Your task to perform on an android device: install app "Flipkart Online Shopping App" Image 0: 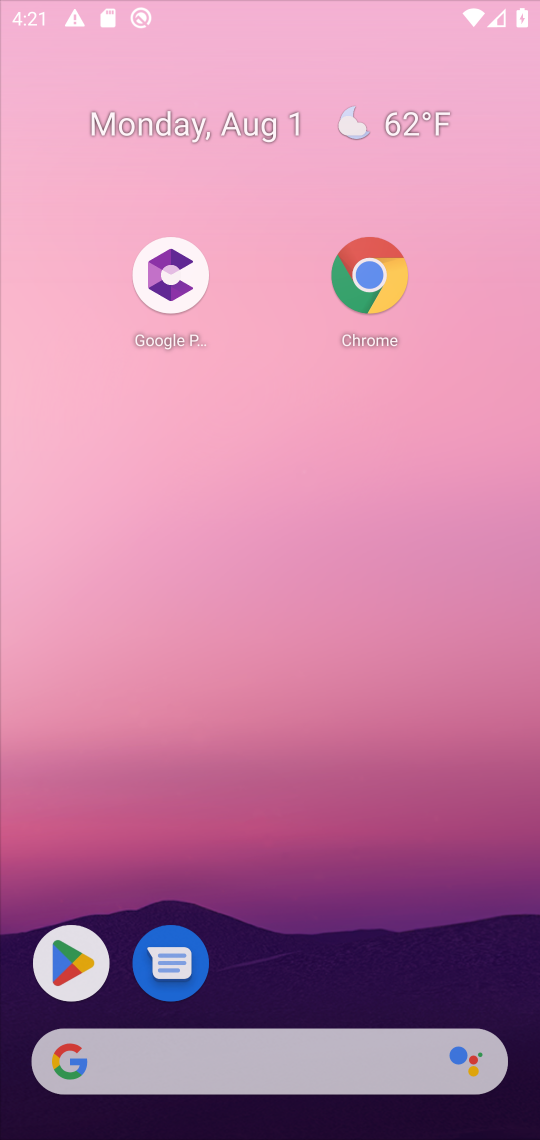
Step 0: press back button
Your task to perform on an android device: install app "Flipkart Online Shopping App" Image 1: 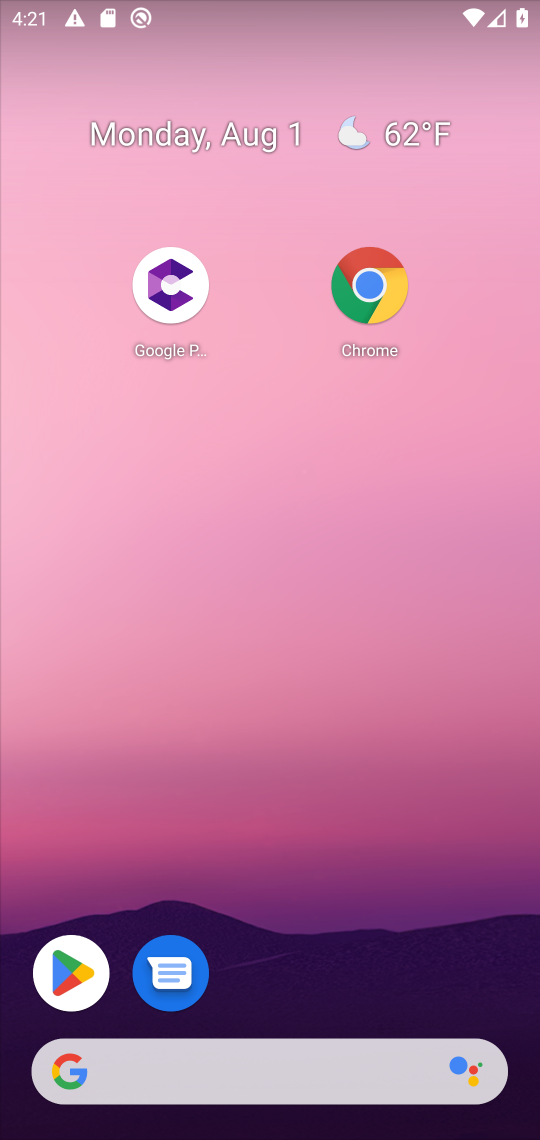
Step 1: press back button
Your task to perform on an android device: install app "Flipkart Online Shopping App" Image 2: 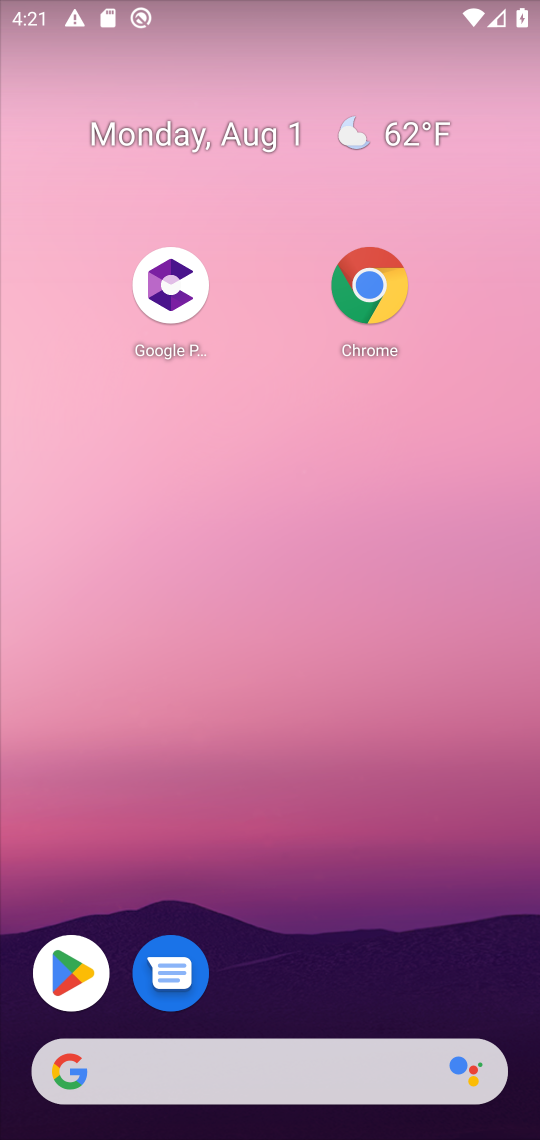
Step 2: click (227, 174)
Your task to perform on an android device: install app "Flipkart Online Shopping App" Image 3: 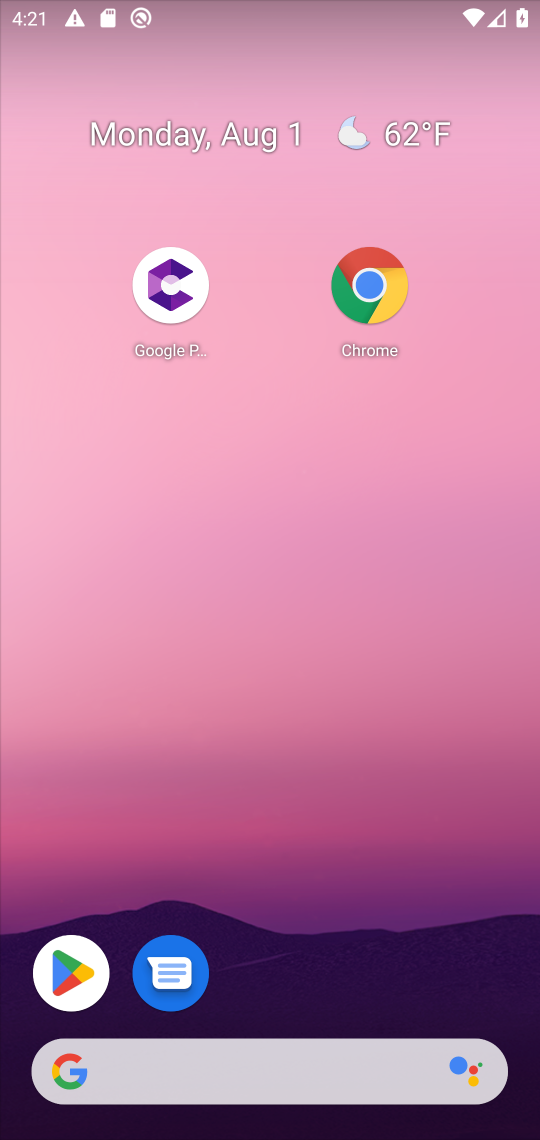
Step 3: drag from (244, 723) to (287, 363)
Your task to perform on an android device: install app "Flipkart Online Shopping App" Image 4: 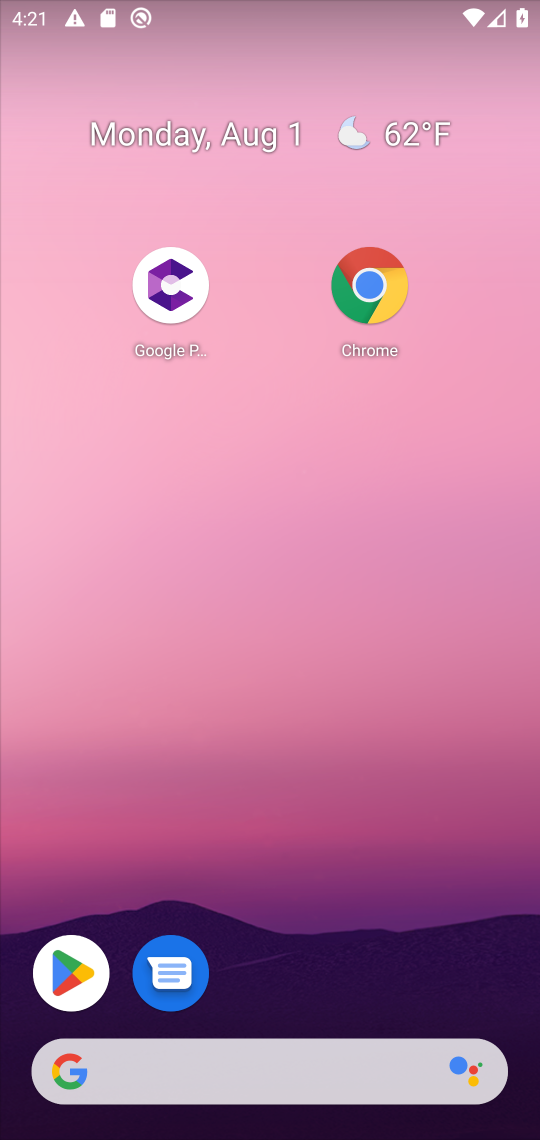
Step 4: drag from (223, 973) to (249, 265)
Your task to perform on an android device: install app "Flipkart Online Shopping App" Image 5: 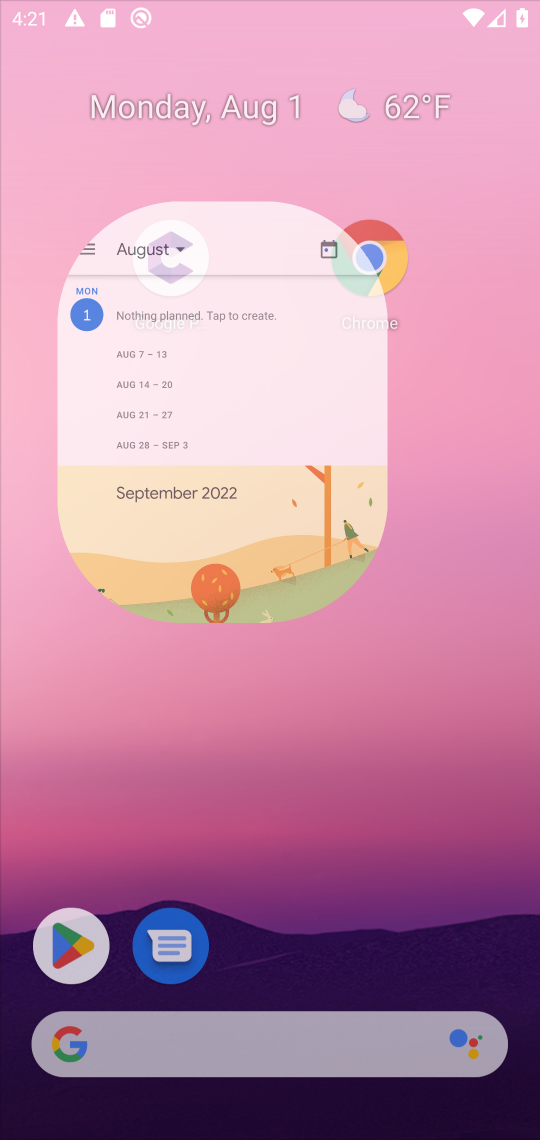
Step 5: drag from (254, 489) to (254, 363)
Your task to perform on an android device: install app "Flipkart Online Shopping App" Image 6: 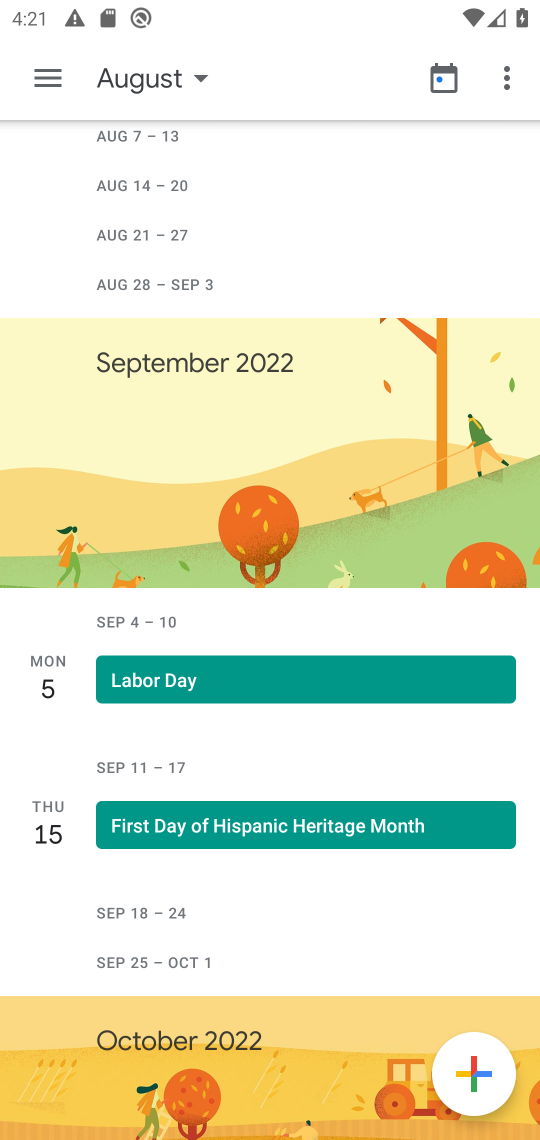
Step 6: drag from (287, 856) to (322, 79)
Your task to perform on an android device: install app "Flipkart Online Shopping App" Image 7: 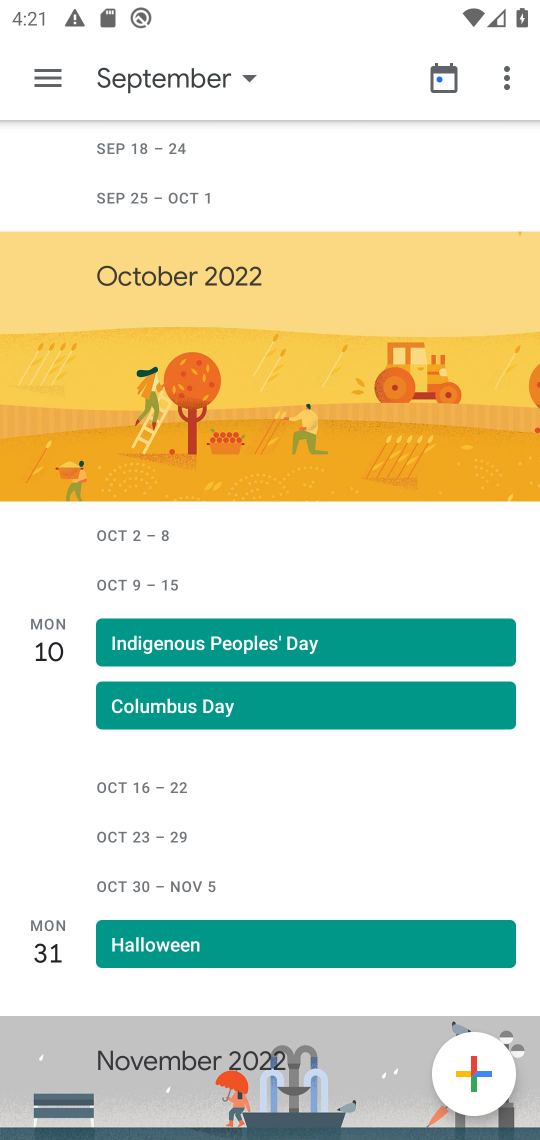
Step 7: press back button
Your task to perform on an android device: install app "Flipkart Online Shopping App" Image 8: 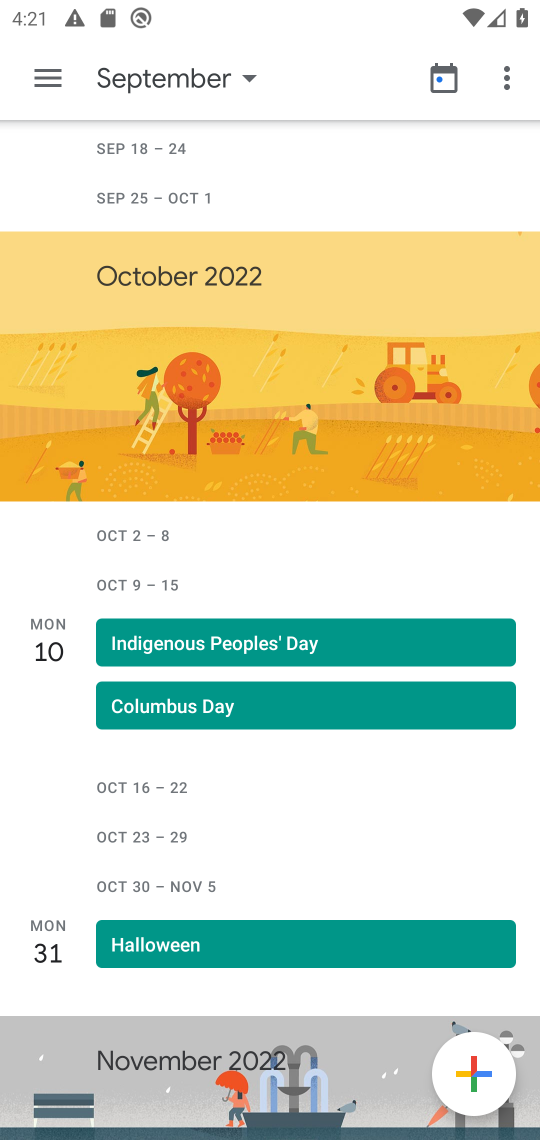
Step 8: press back button
Your task to perform on an android device: install app "Flipkart Online Shopping App" Image 9: 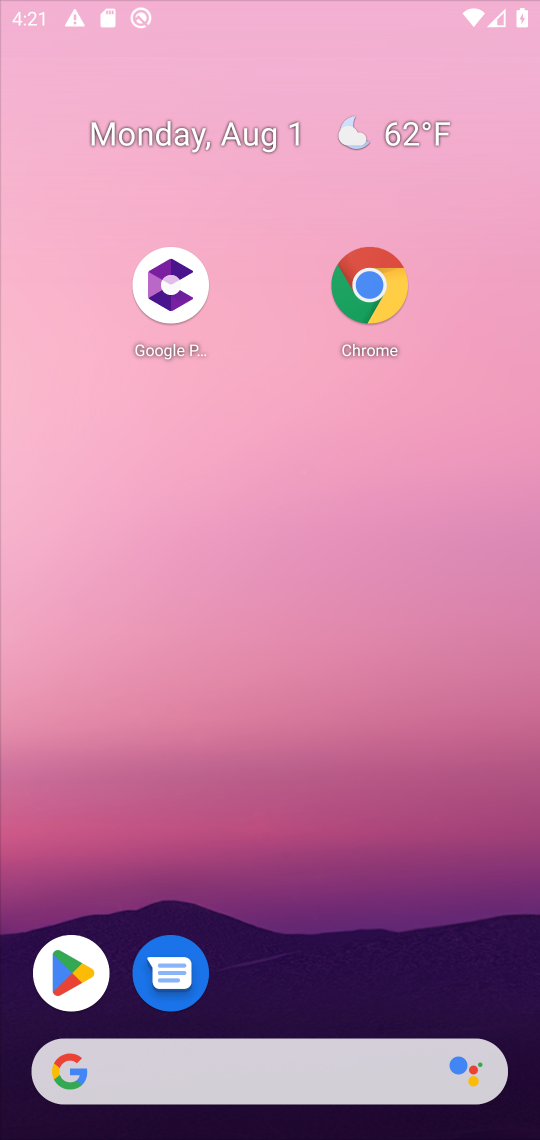
Step 9: press home button
Your task to perform on an android device: install app "Flipkart Online Shopping App" Image 10: 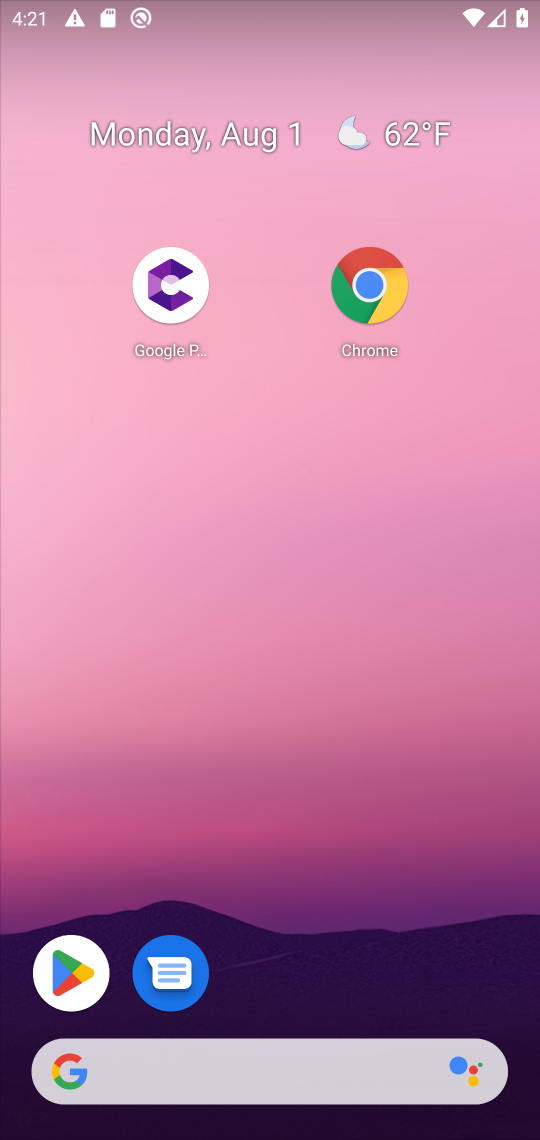
Step 10: drag from (332, 912) to (195, 42)
Your task to perform on an android device: install app "Flipkart Online Shopping App" Image 11: 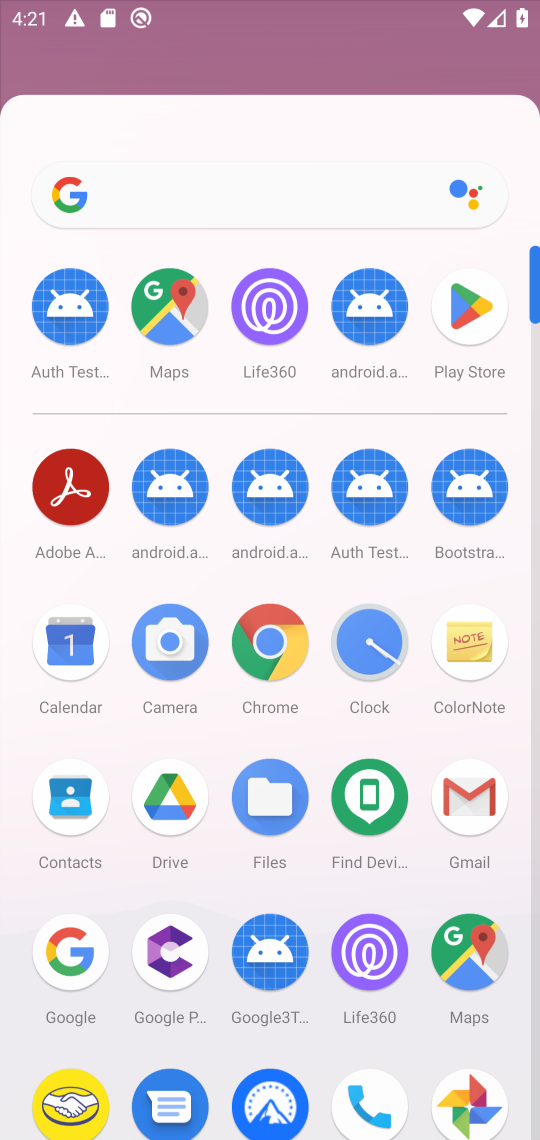
Step 11: drag from (157, 512) to (129, 367)
Your task to perform on an android device: install app "Flipkart Online Shopping App" Image 12: 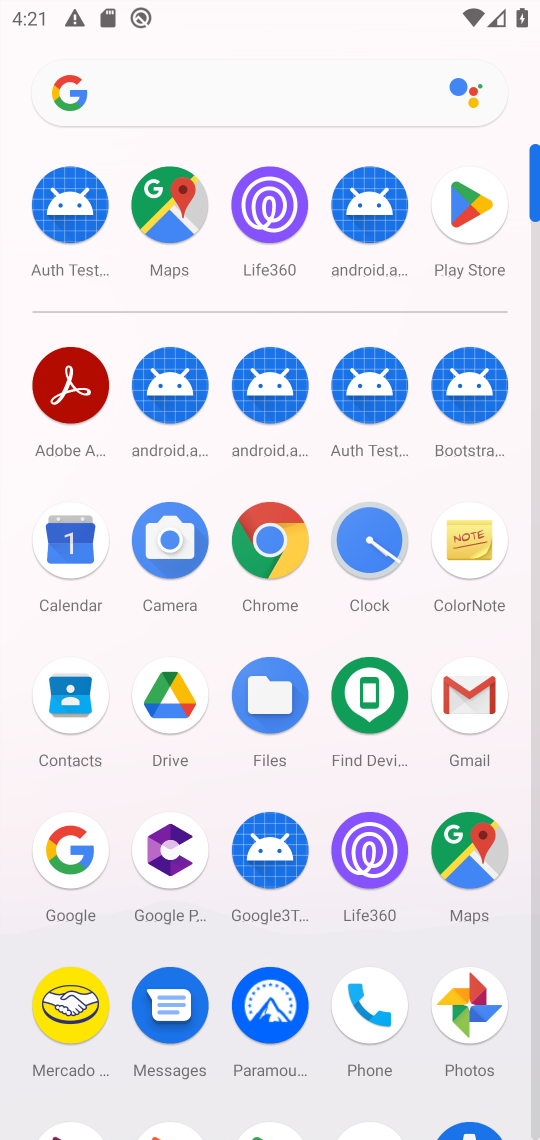
Step 12: click (467, 212)
Your task to perform on an android device: install app "Flipkart Online Shopping App" Image 13: 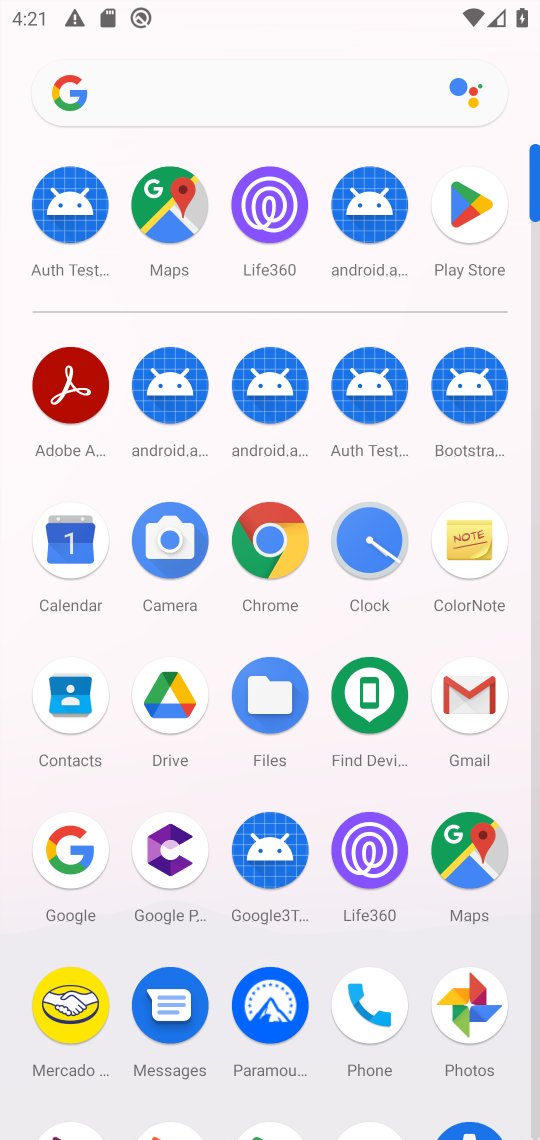
Step 13: click (474, 204)
Your task to perform on an android device: install app "Flipkart Online Shopping App" Image 14: 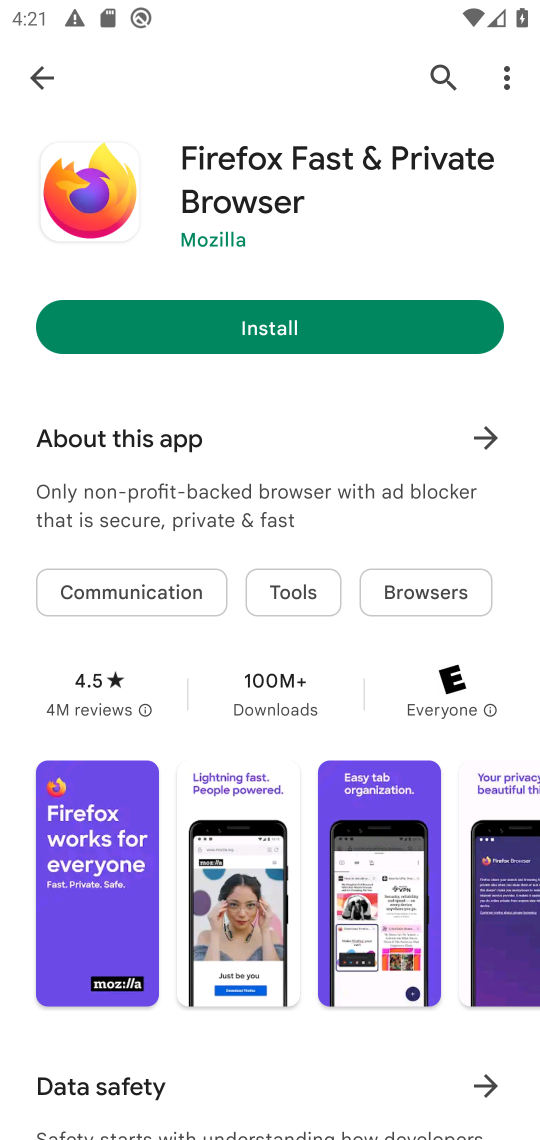
Step 14: click (22, 81)
Your task to perform on an android device: install app "Flipkart Online Shopping App" Image 15: 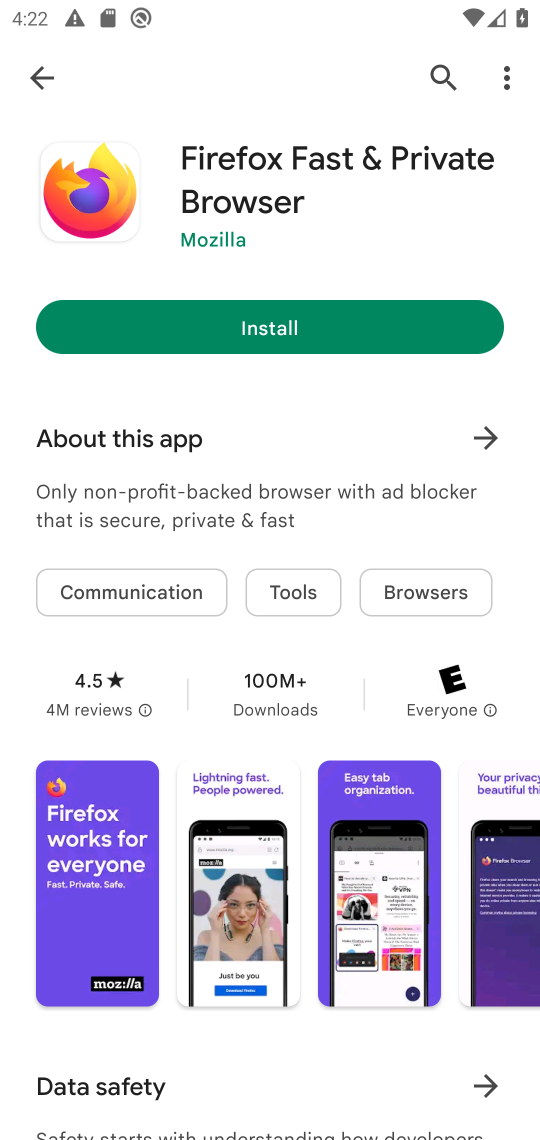
Step 15: click (29, 80)
Your task to perform on an android device: install app "Flipkart Online Shopping App" Image 16: 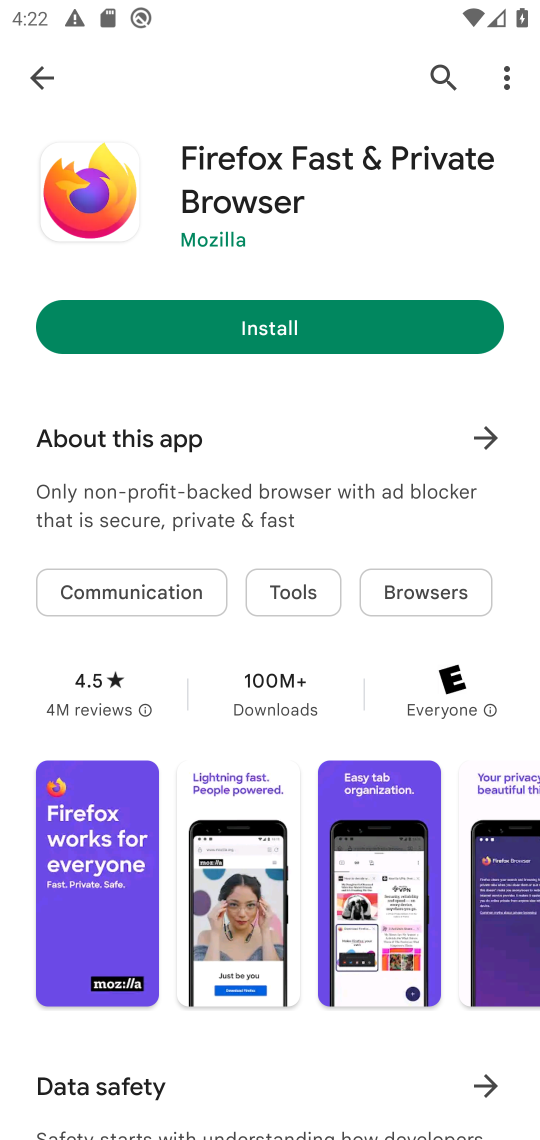
Step 16: click (29, 80)
Your task to perform on an android device: install app "Flipkart Online Shopping App" Image 17: 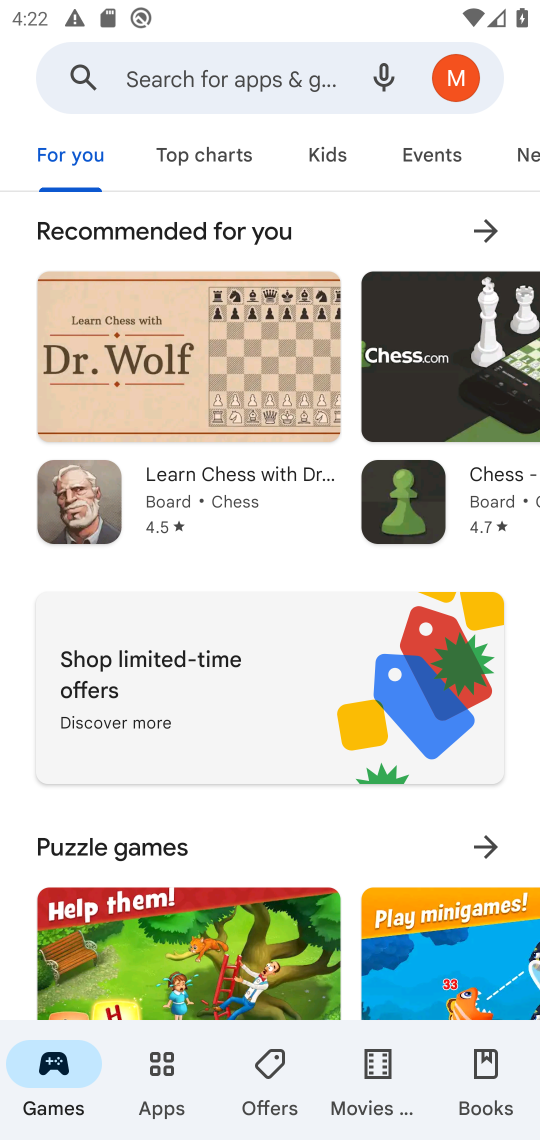
Step 17: click (187, 82)
Your task to perform on an android device: install app "Flipkart Online Shopping App" Image 18: 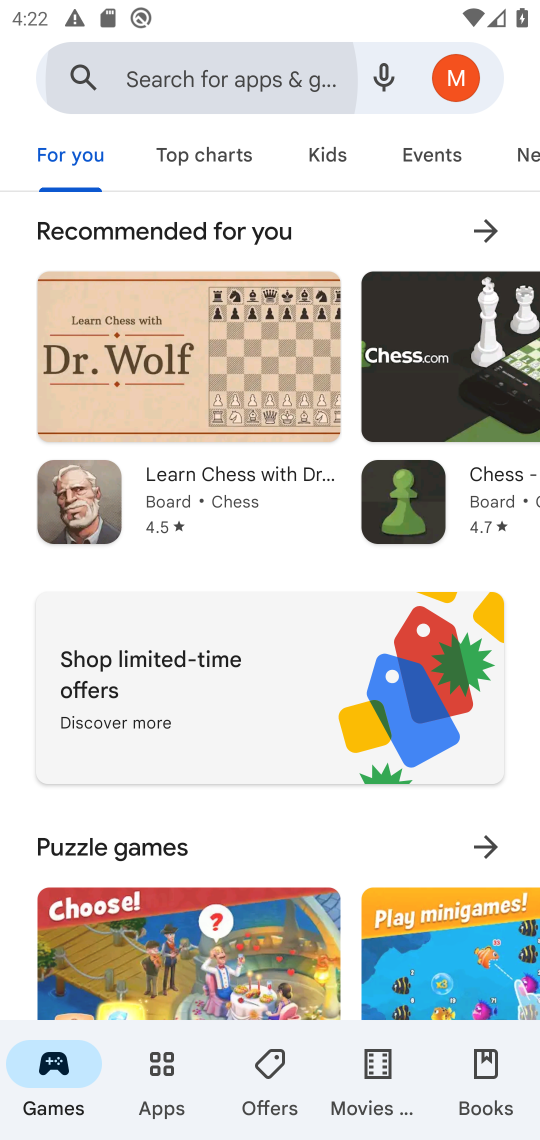
Step 18: click (184, 93)
Your task to perform on an android device: install app "Flipkart Online Shopping App" Image 19: 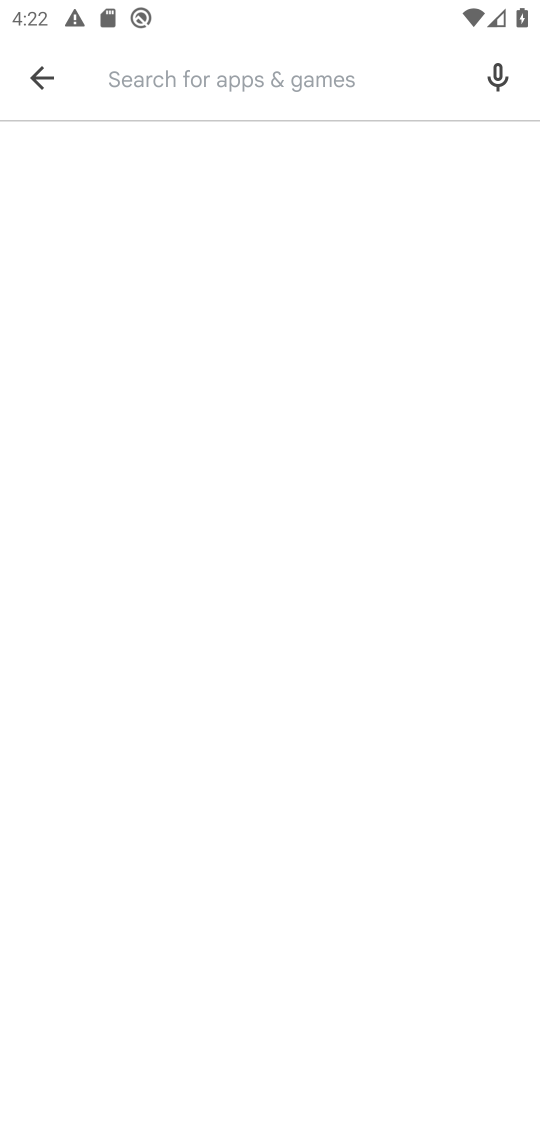
Step 19: click (184, 93)
Your task to perform on an android device: install app "Flipkart Online Shopping App" Image 20: 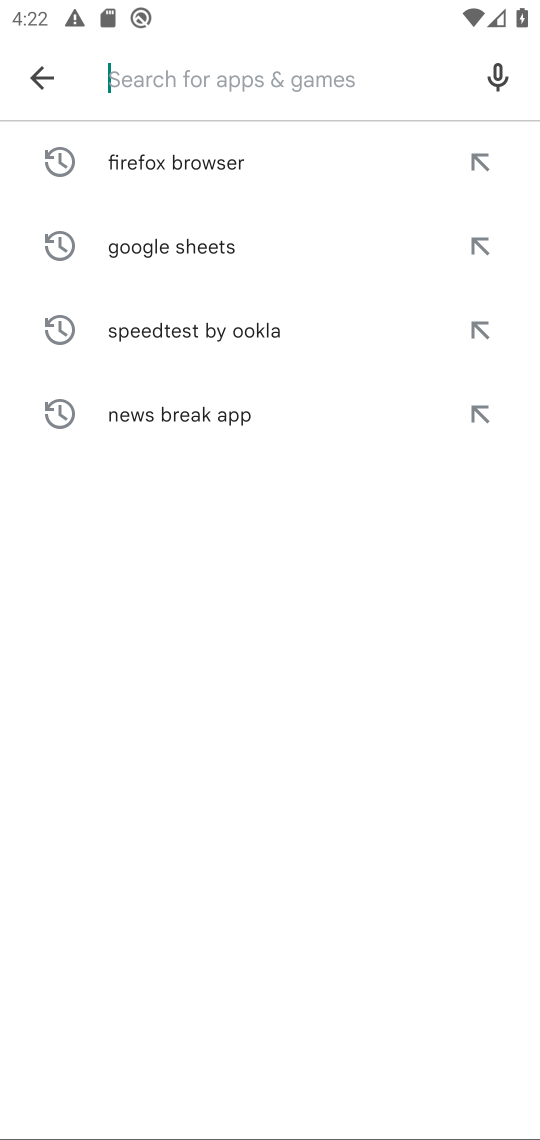
Step 20: click (183, 92)
Your task to perform on an android device: install app "Flipkart Online Shopping App" Image 21: 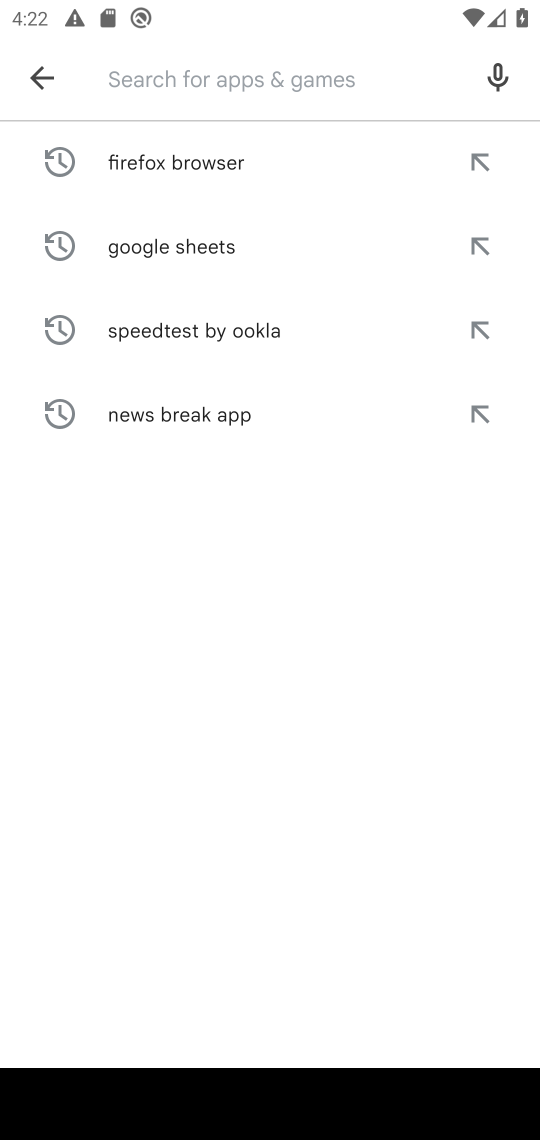
Step 21: type "flipkaet online "
Your task to perform on an android device: install app "Flipkart Online Shopping App" Image 22: 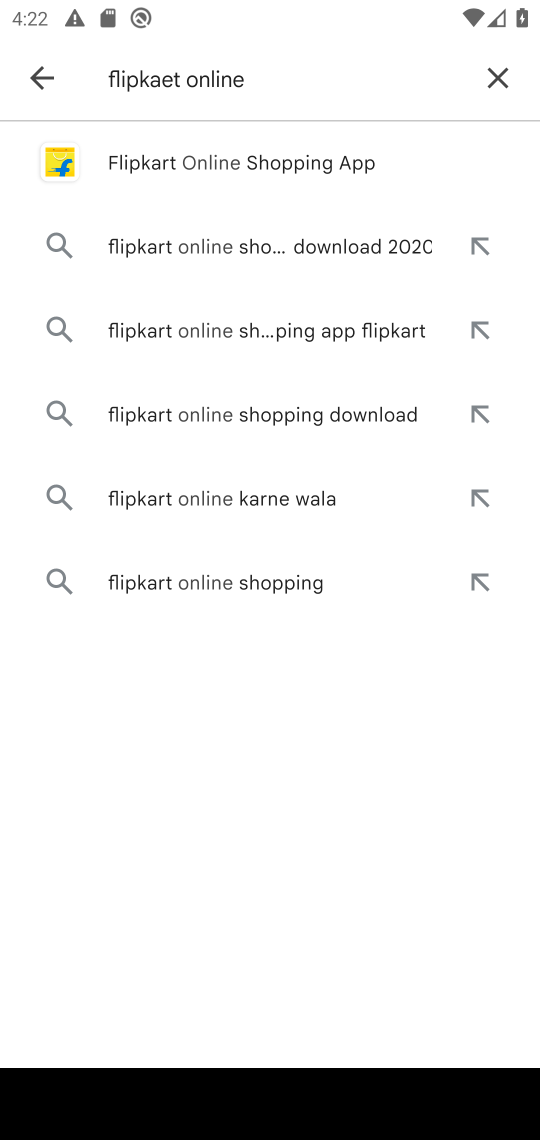
Step 22: click (289, 155)
Your task to perform on an android device: install app "Flipkart Online Shopping App" Image 23: 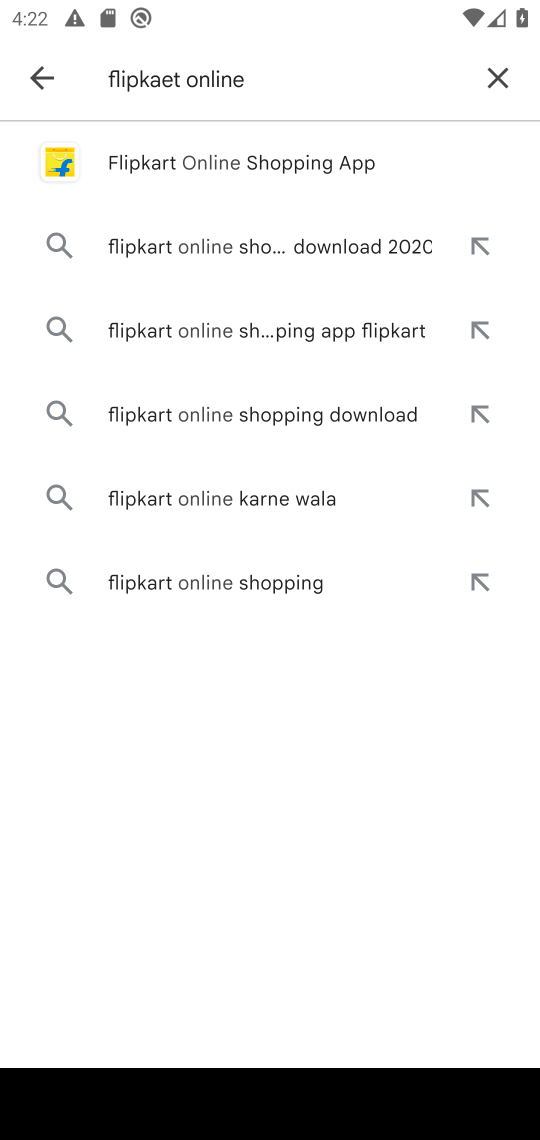
Step 23: click (289, 155)
Your task to perform on an android device: install app "Flipkart Online Shopping App" Image 24: 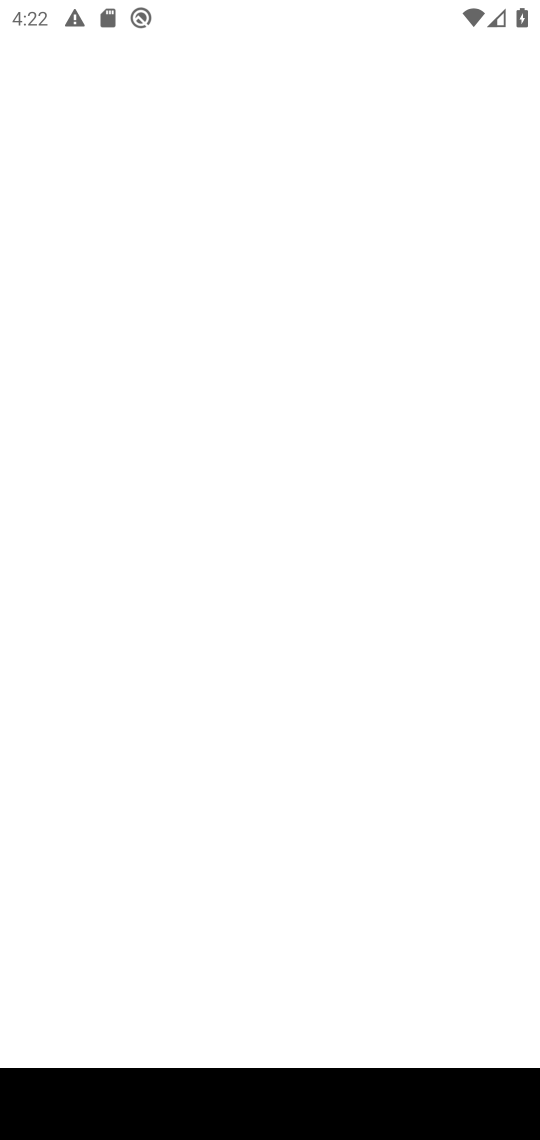
Step 24: click (289, 155)
Your task to perform on an android device: install app "Flipkart Online Shopping App" Image 25: 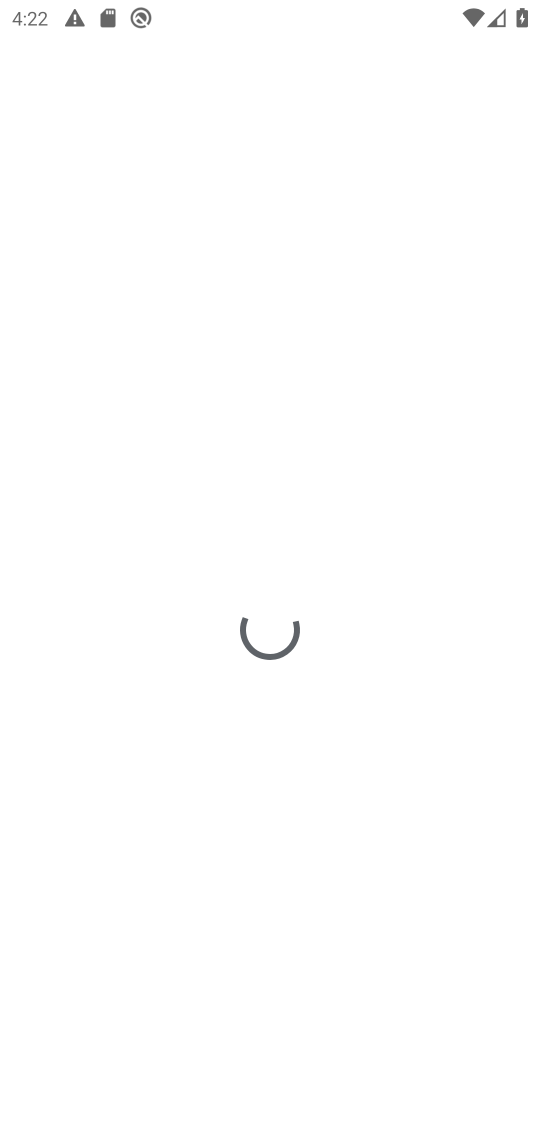
Step 25: click (289, 155)
Your task to perform on an android device: install app "Flipkart Online Shopping App" Image 26: 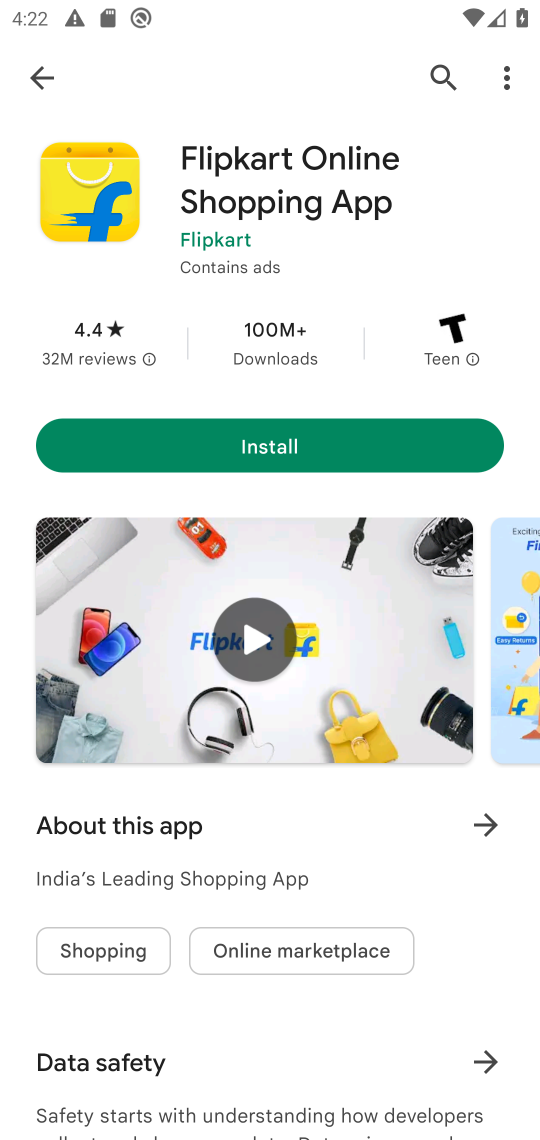
Step 26: click (249, 429)
Your task to perform on an android device: install app "Flipkart Online Shopping App" Image 27: 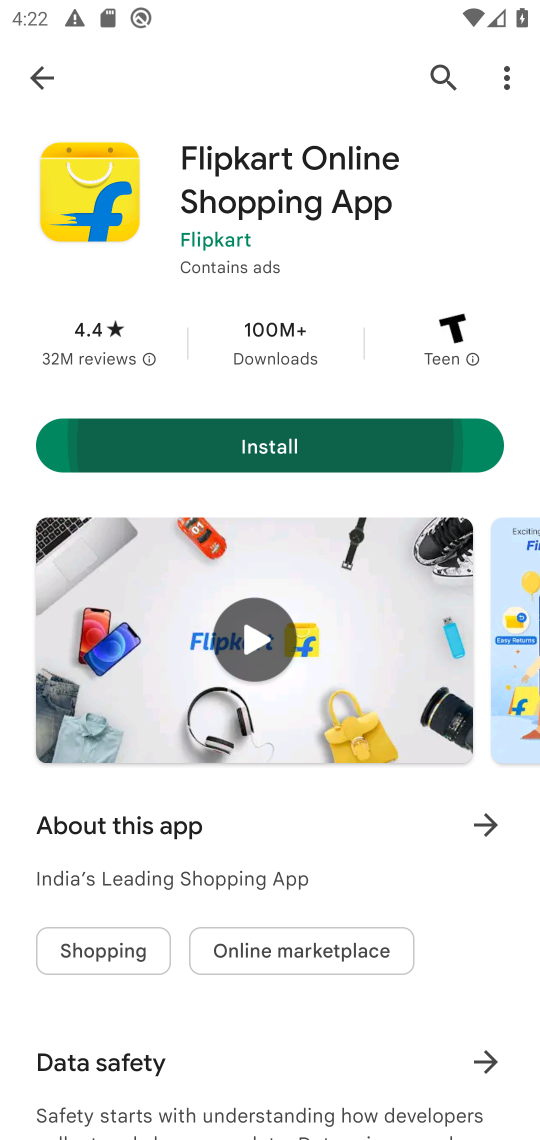
Step 27: click (251, 430)
Your task to perform on an android device: install app "Flipkart Online Shopping App" Image 28: 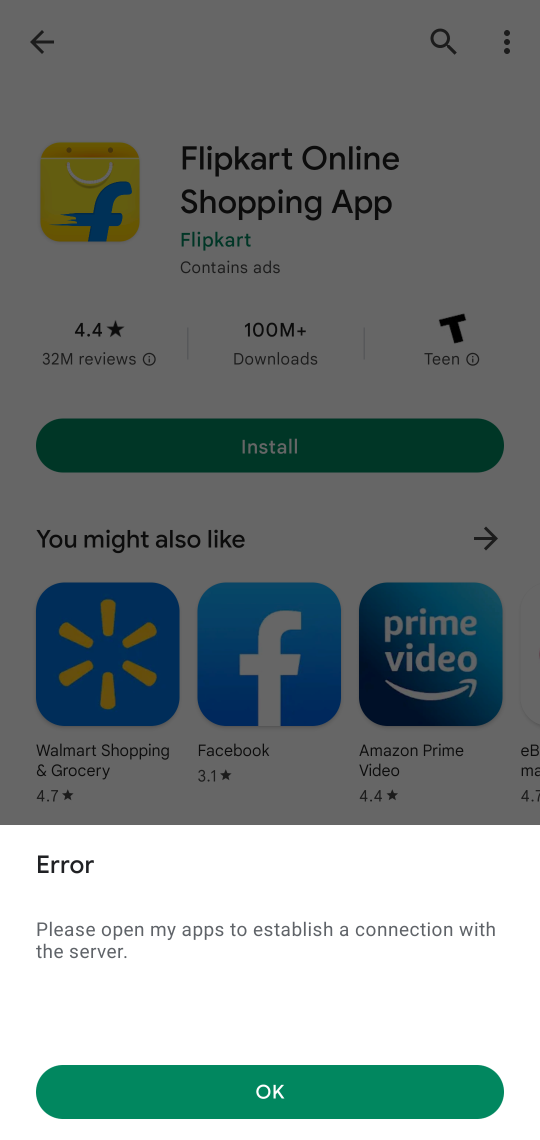
Step 28: click (374, 1088)
Your task to perform on an android device: install app "Flipkart Online Shopping App" Image 29: 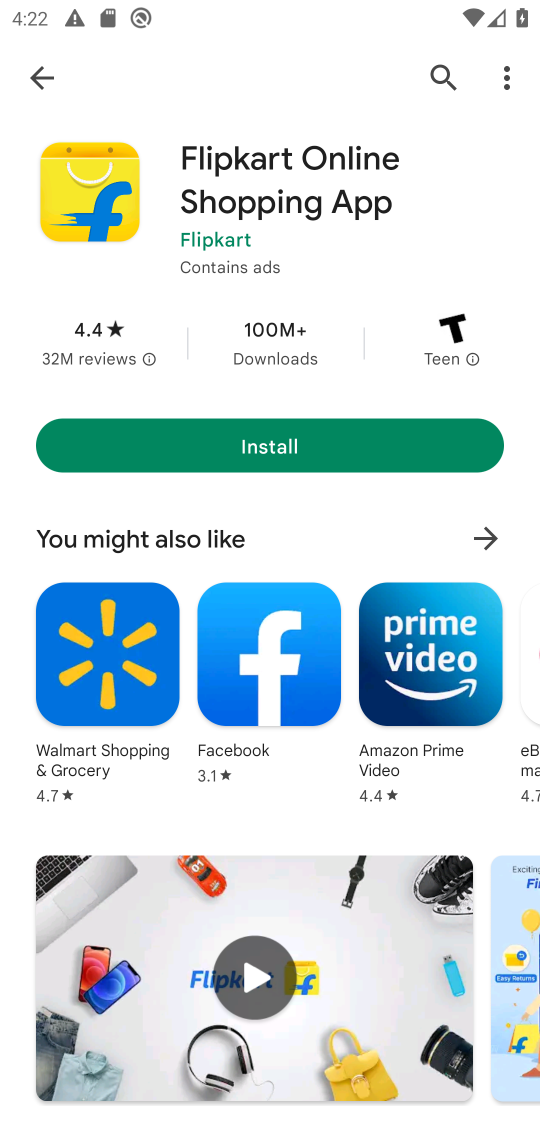
Step 29: click (303, 440)
Your task to perform on an android device: install app "Flipkart Online Shopping App" Image 30: 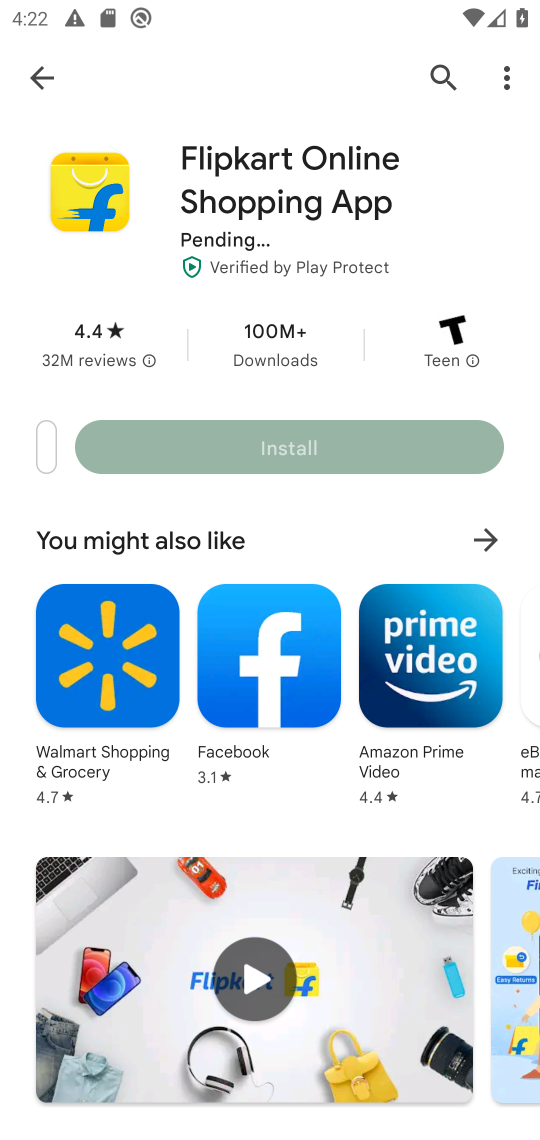
Step 30: click (305, 439)
Your task to perform on an android device: install app "Flipkart Online Shopping App" Image 31: 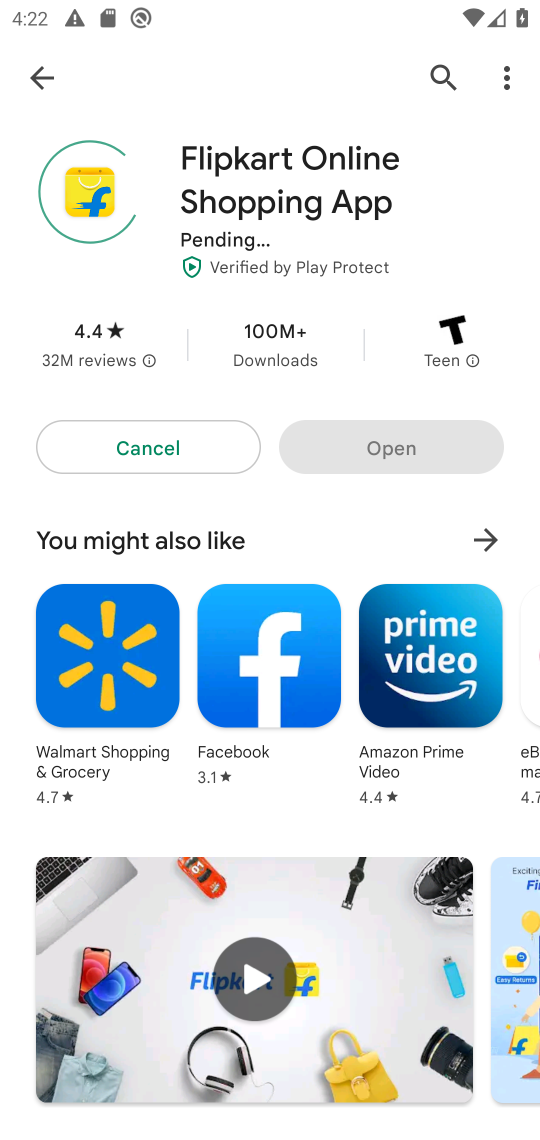
Step 31: click (296, 445)
Your task to perform on an android device: install app "Flipkart Online Shopping App" Image 32: 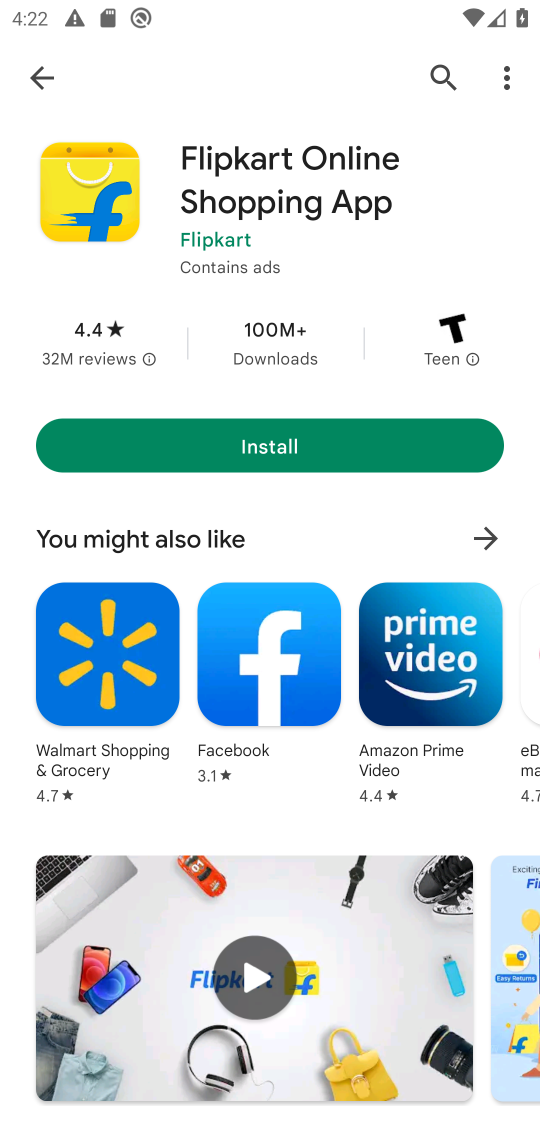
Step 32: click (312, 459)
Your task to perform on an android device: install app "Flipkart Online Shopping App" Image 33: 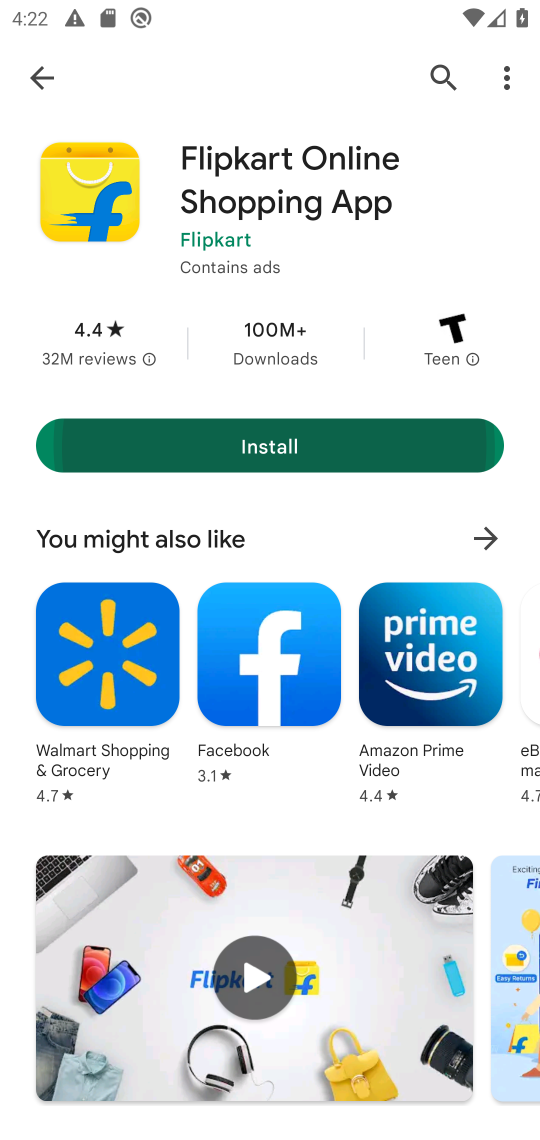
Step 33: click (311, 452)
Your task to perform on an android device: install app "Flipkart Online Shopping App" Image 34: 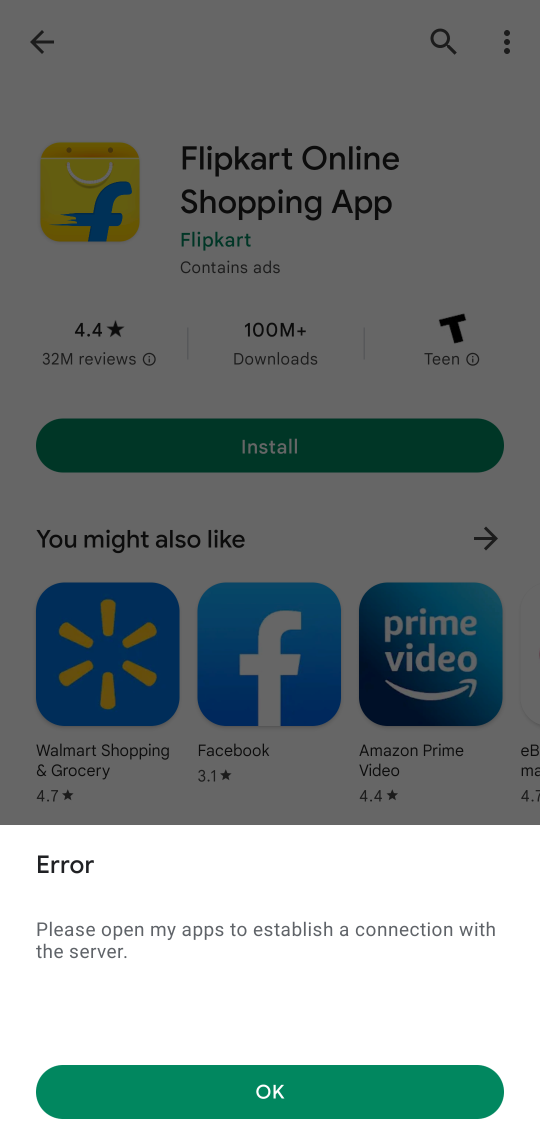
Step 34: click (249, 1081)
Your task to perform on an android device: install app "Flipkart Online Shopping App" Image 35: 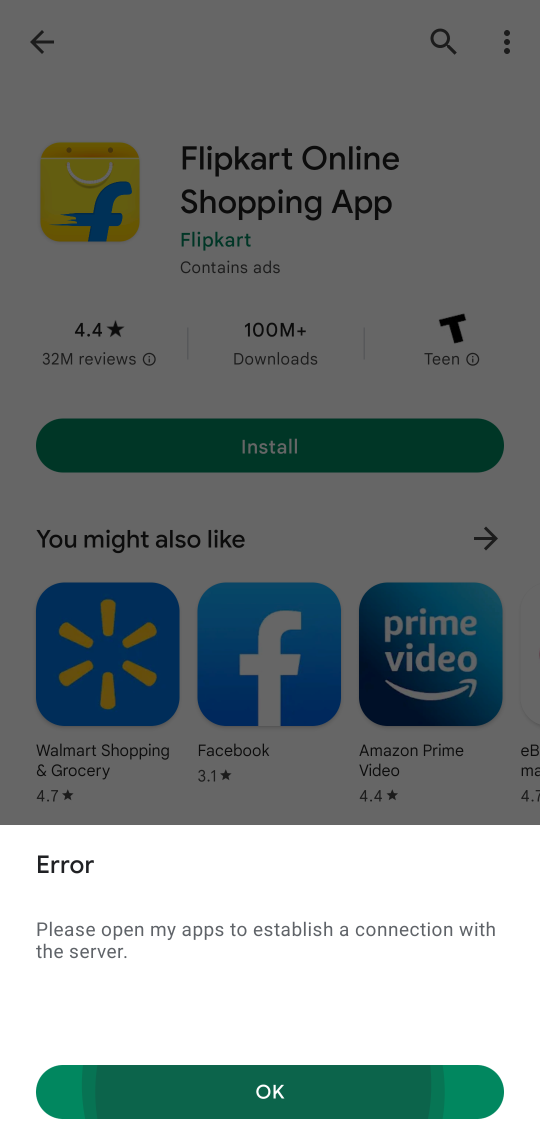
Step 35: click (252, 1082)
Your task to perform on an android device: install app "Flipkart Online Shopping App" Image 36: 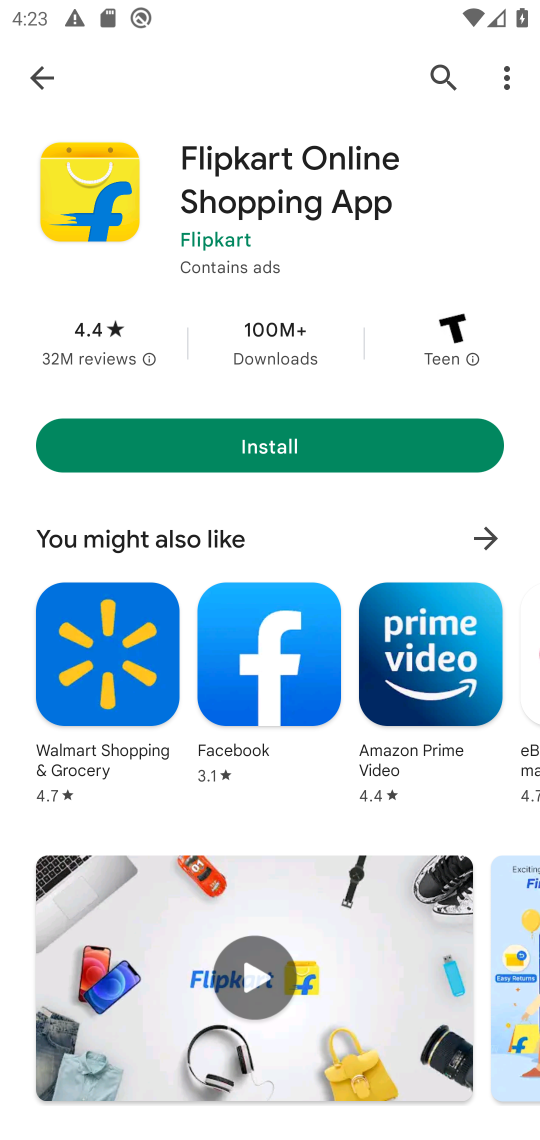
Step 36: click (254, 443)
Your task to perform on an android device: install app "Flipkart Online Shopping App" Image 37: 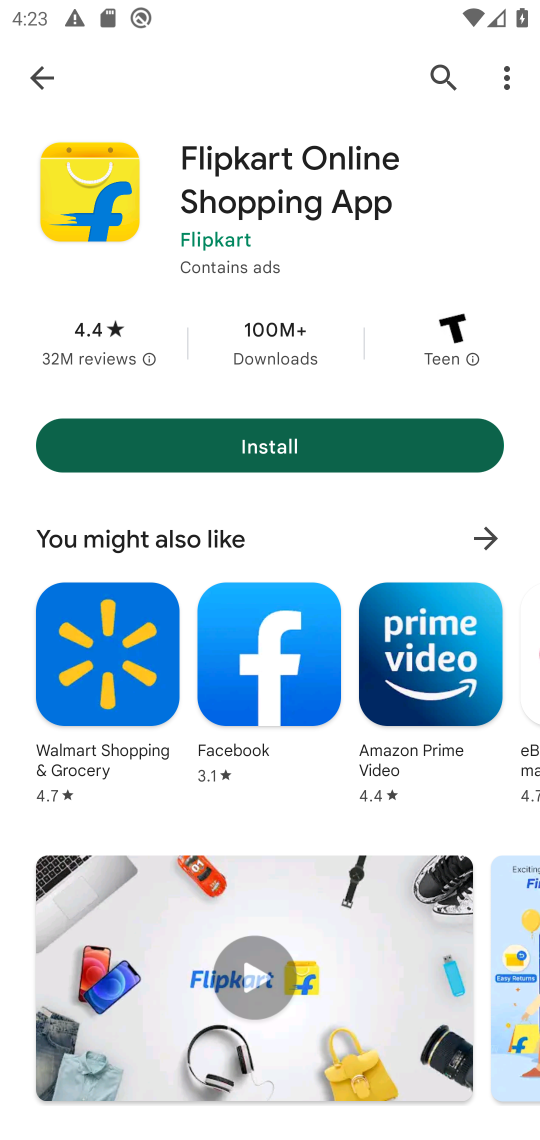
Step 37: click (265, 435)
Your task to perform on an android device: install app "Flipkart Online Shopping App" Image 38: 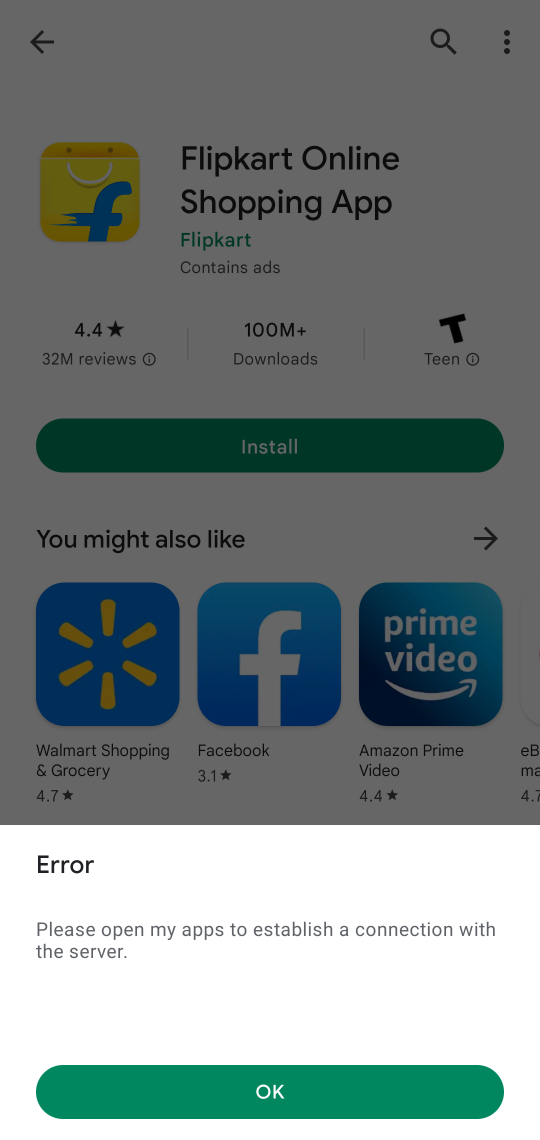
Step 38: click (280, 1092)
Your task to perform on an android device: install app "Flipkart Online Shopping App" Image 39: 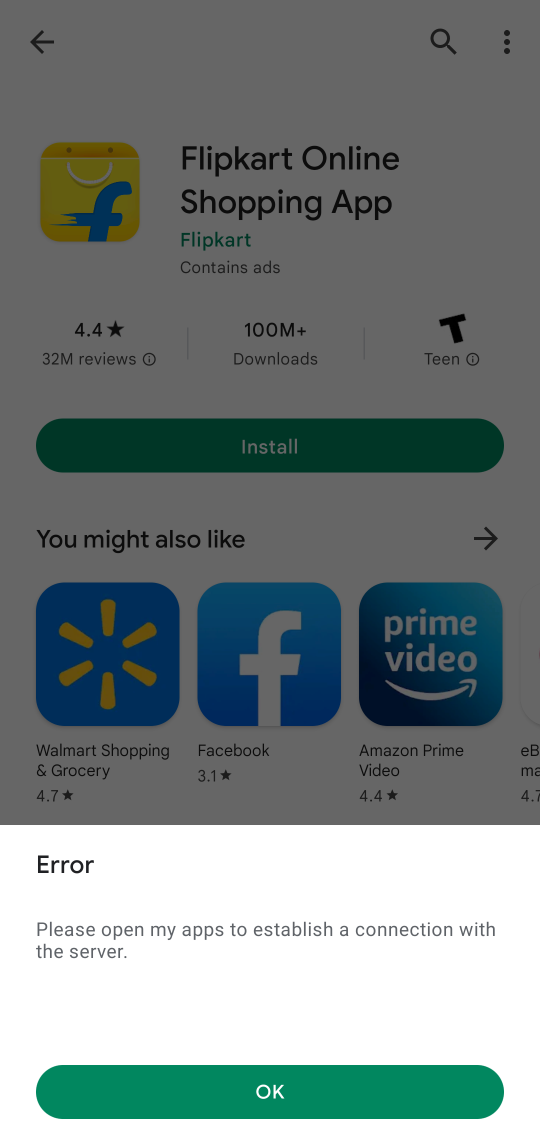
Step 39: click (298, 1090)
Your task to perform on an android device: install app "Flipkart Online Shopping App" Image 40: 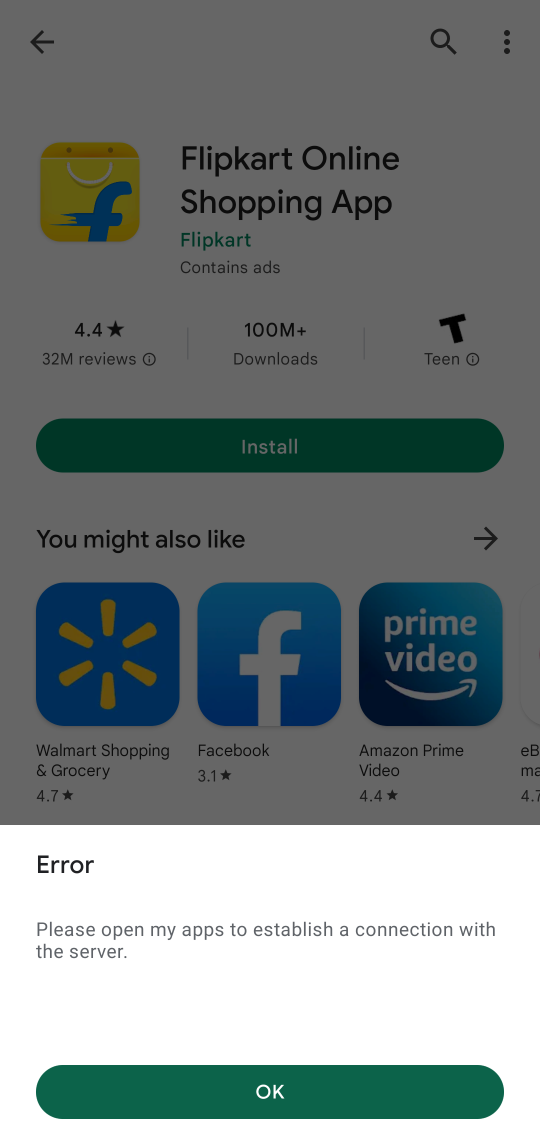
Step 40: click (299, 1089)
Your task to perform on an android device: install app "Flipkart Online Shopping App" Image 41: 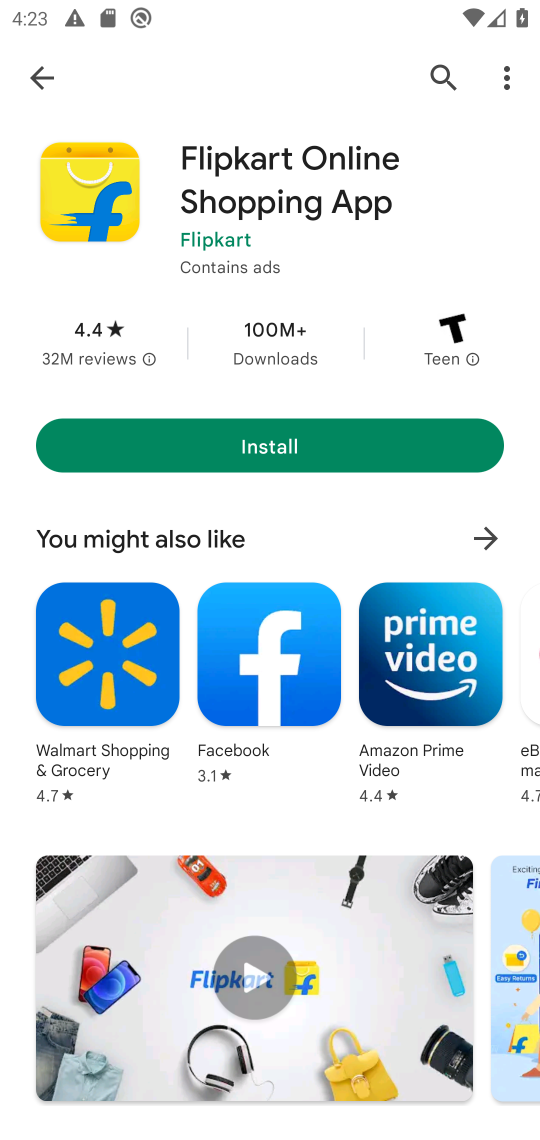
Step 41: click (293, 446)
Your task to perform on an android device: install app "Flipkart Online Shopping App" Image 42: 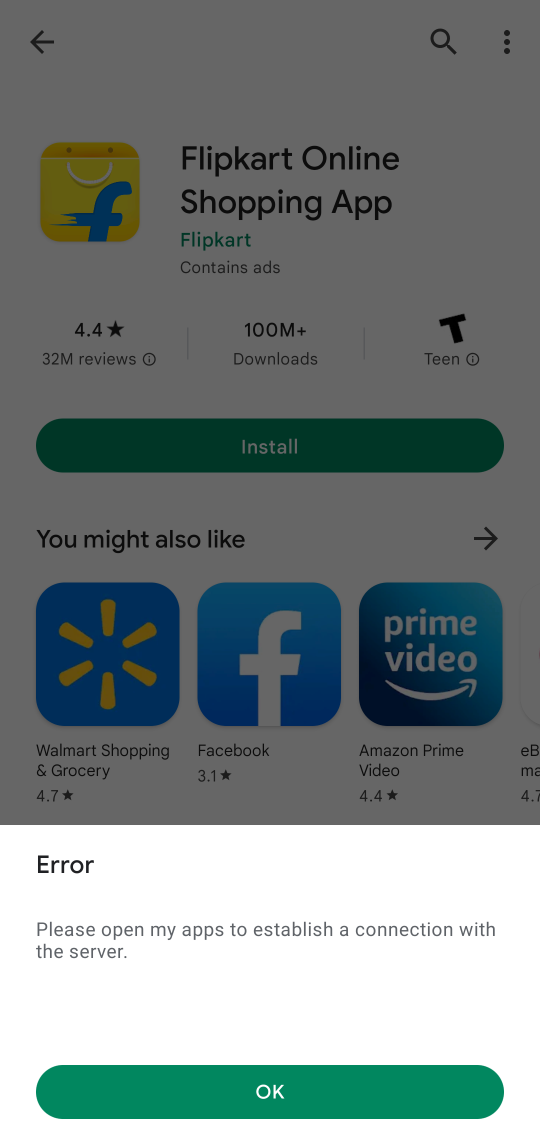
Step 42: click (268, 1097)
Your task to perform on an android device: install app "Flipkart Online Shopping App" Image 43: 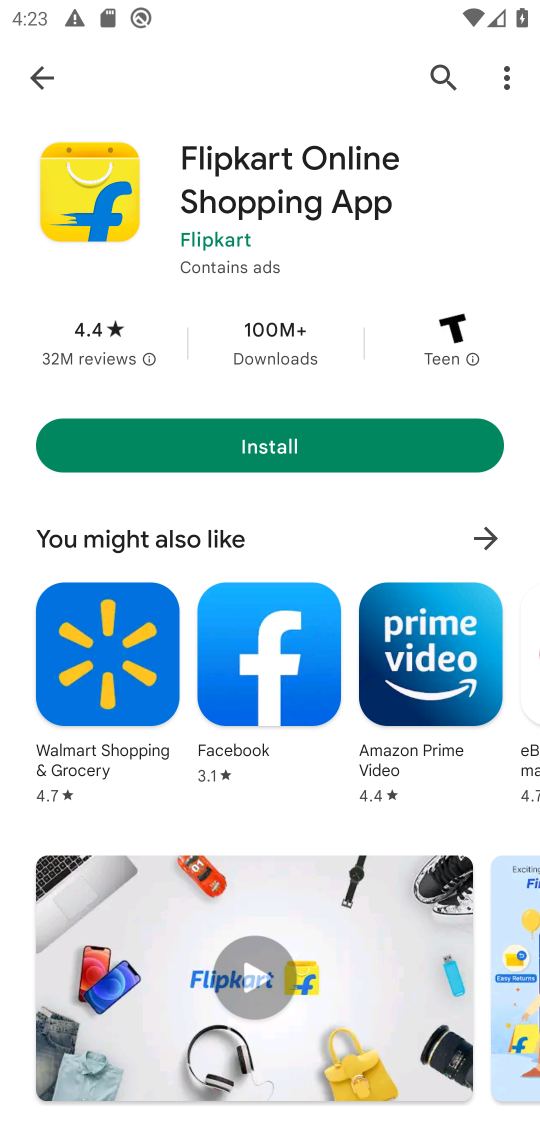
Step 43: click (269, 429)
Your task to perform on an android device: install app "Flipkart Online Shopping App" Image 44: 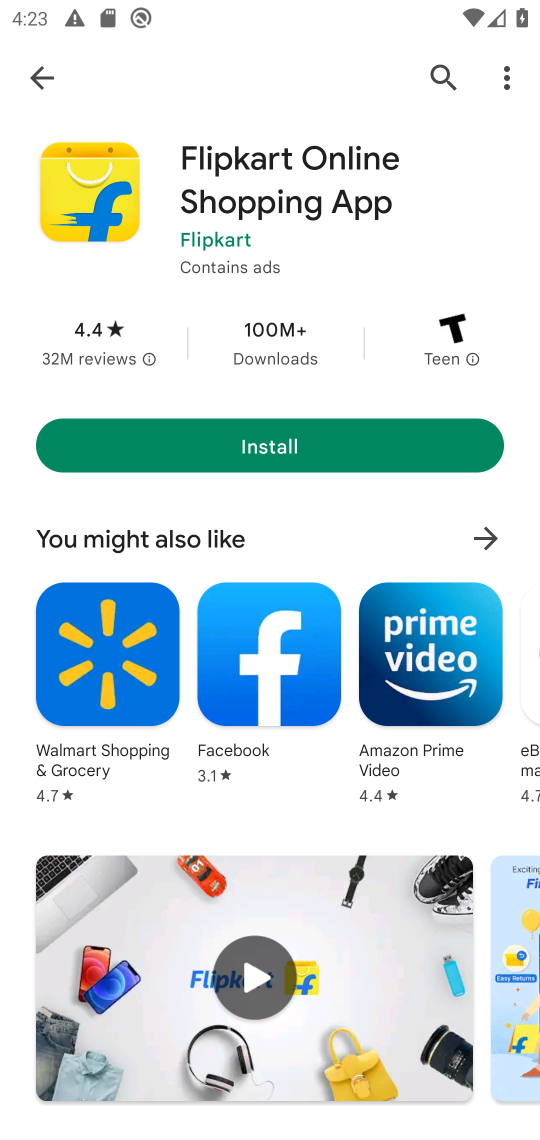
Step 44: click (268, 436)
Your task to perform on an android device: install app "Flipkart Online Shopping App" Image 45: 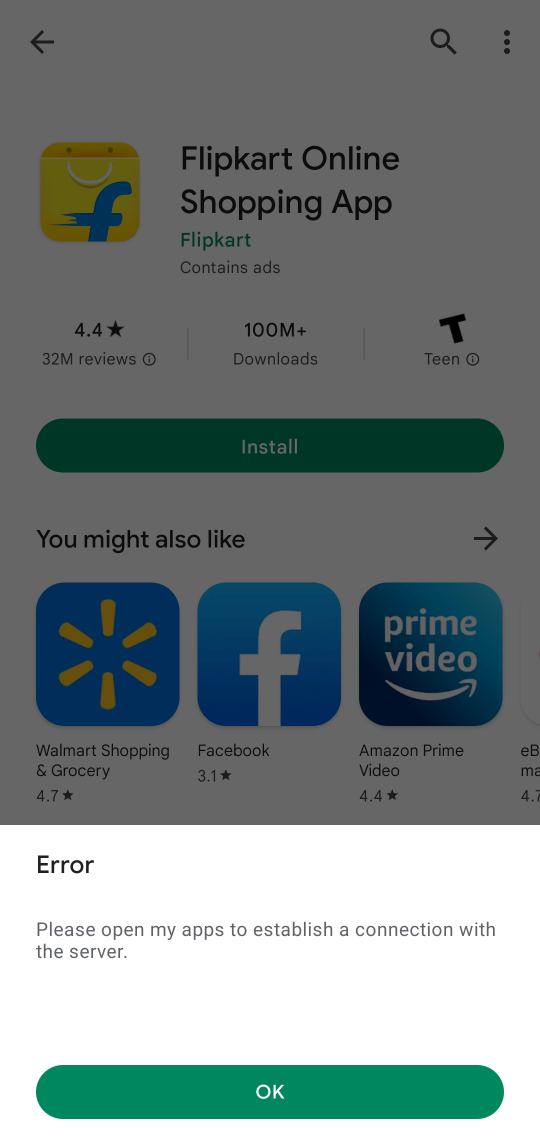
Step 45: click (266, 1097)
Your task to perform on an android device: install app "Flipkart Online Shopping App" Image 46: 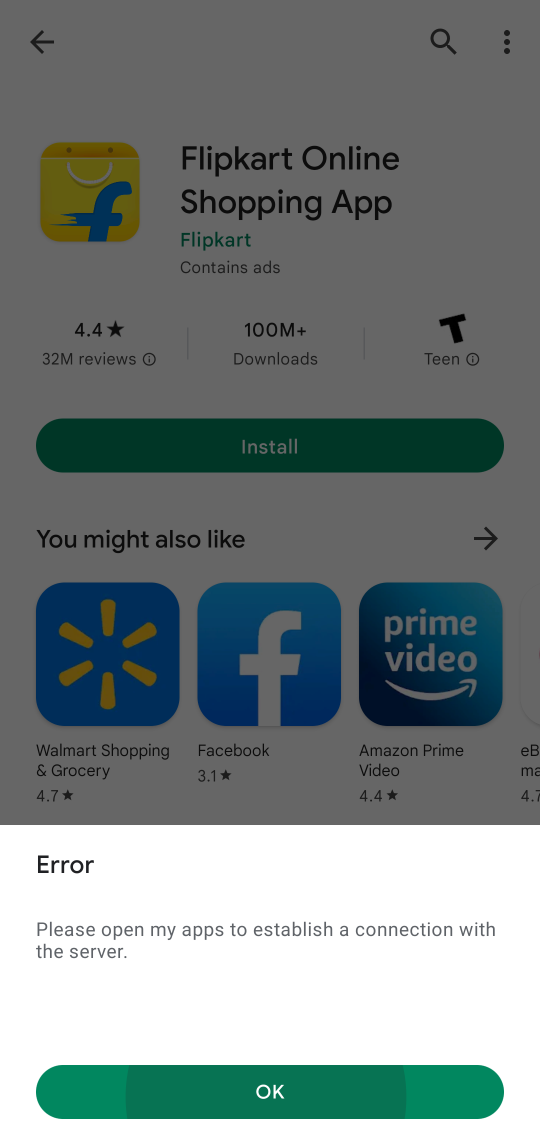
Step 46: click (285, 1094)
Your task to perform on an android device: install app "Flipkart Online Shopping App" Image 47: 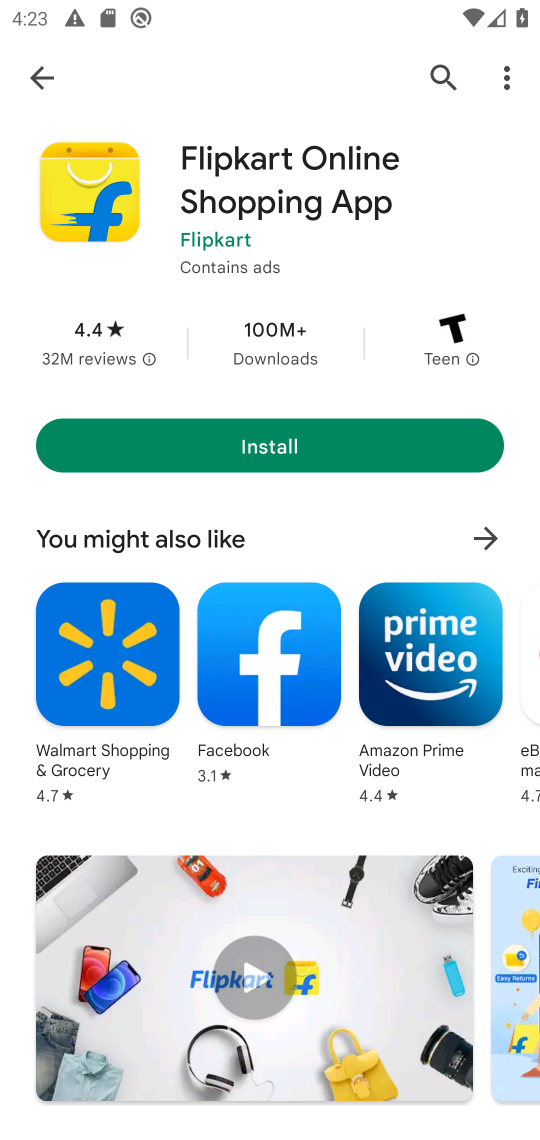
Step 47: click (270, 444)
Your task to perform on an android device: install app "Flipkart Online Shopping App" Image 48: 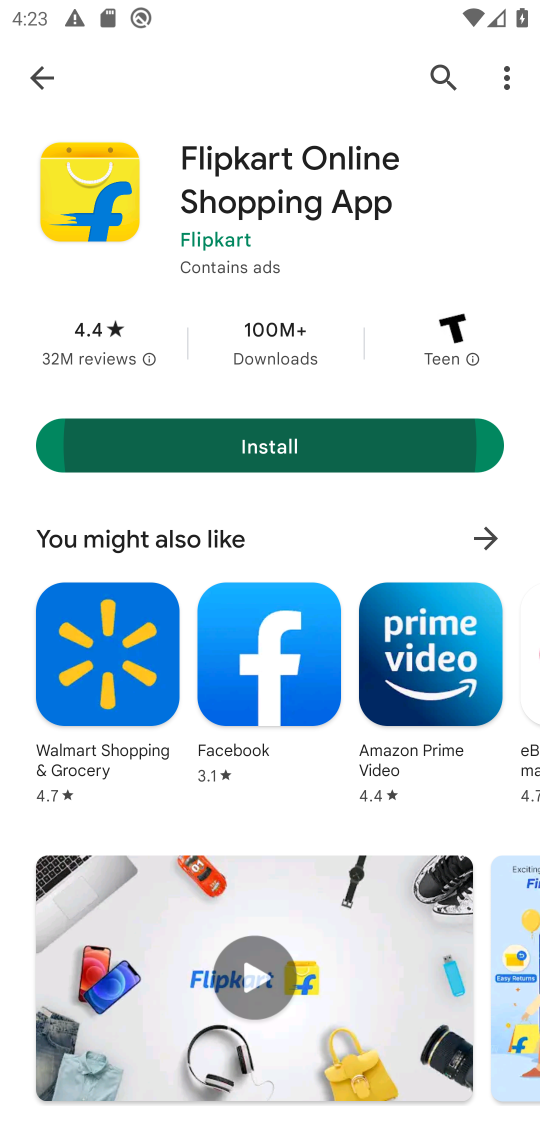
Step 48: click (284, 447)
Your task to perform on an android device: install app "Flipkart Online Shopping App" Image 49: 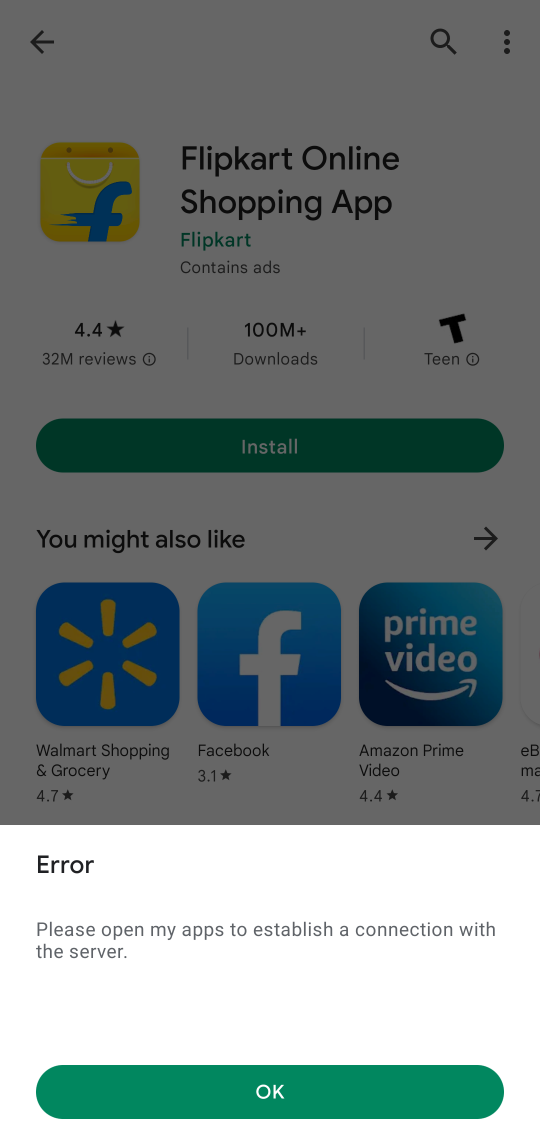
Step 49: click (305, 1091)
Your task to perform on an android device: install app "Flipkart Online Shopping App" Image 50: 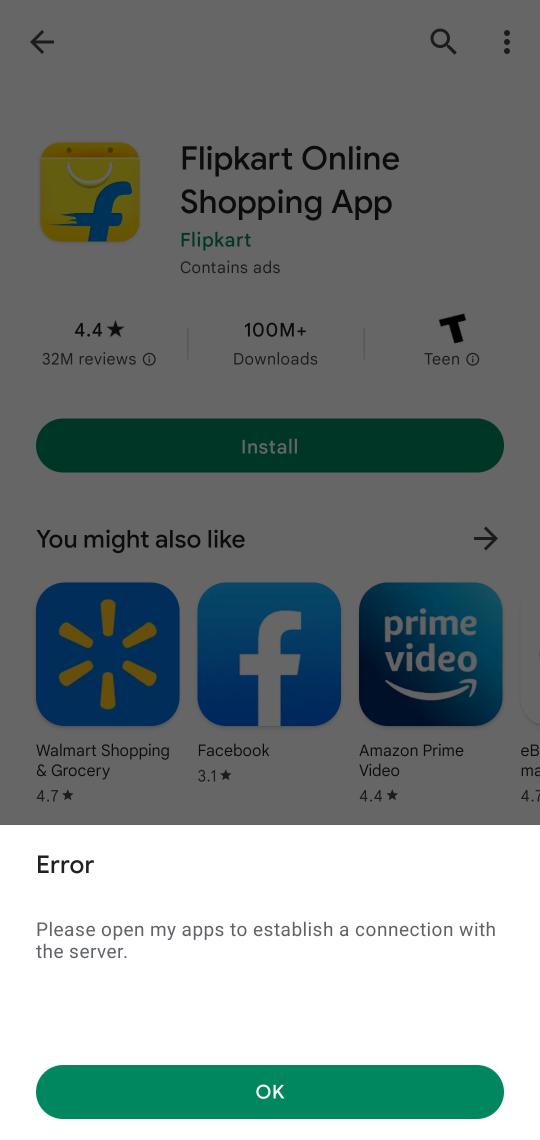
Step 50: click (307, 1088)
Your task to perform on an android device: install app "Flipkart Online Shopping App" Image 51: 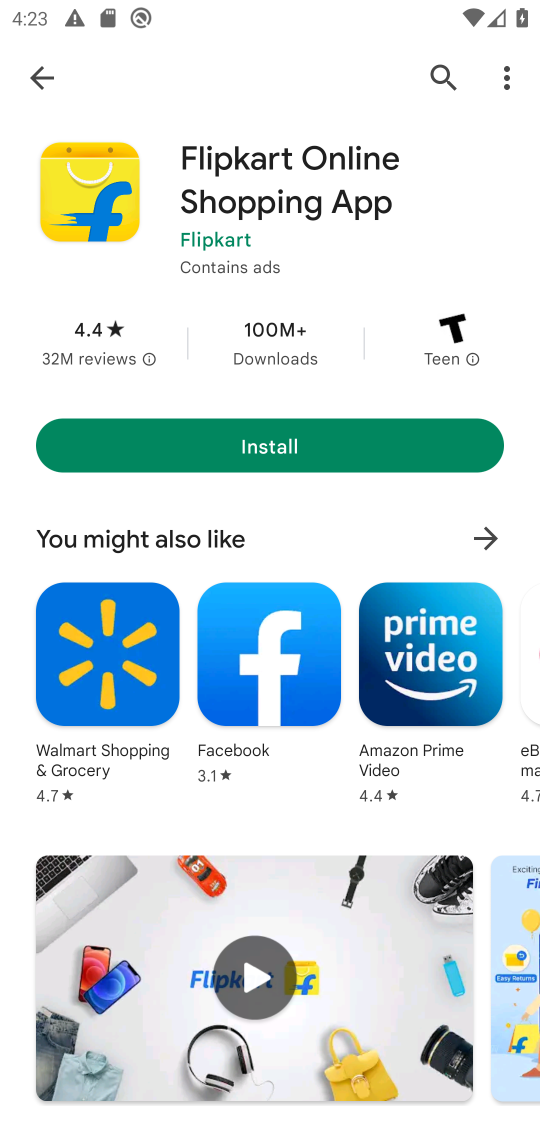
Step 51: click (289, 459)
Your task to perform on an android device: install app "Flipkart Online Shopping App" Image 52: 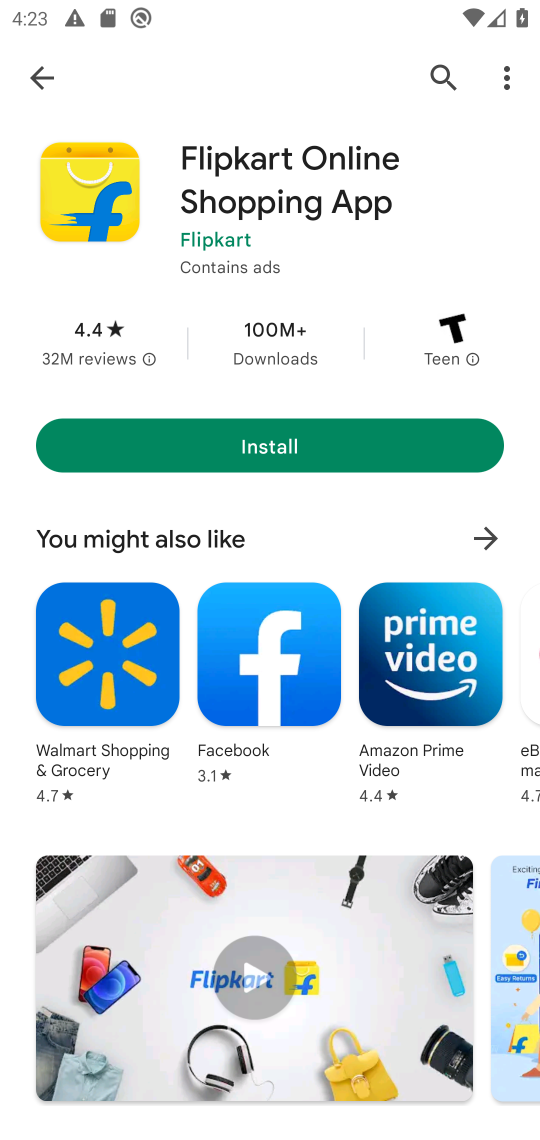
Step 52: click (293, 462)
Your task to perform on an android device: install app "Flipkart Online Shopping App" Image 53: 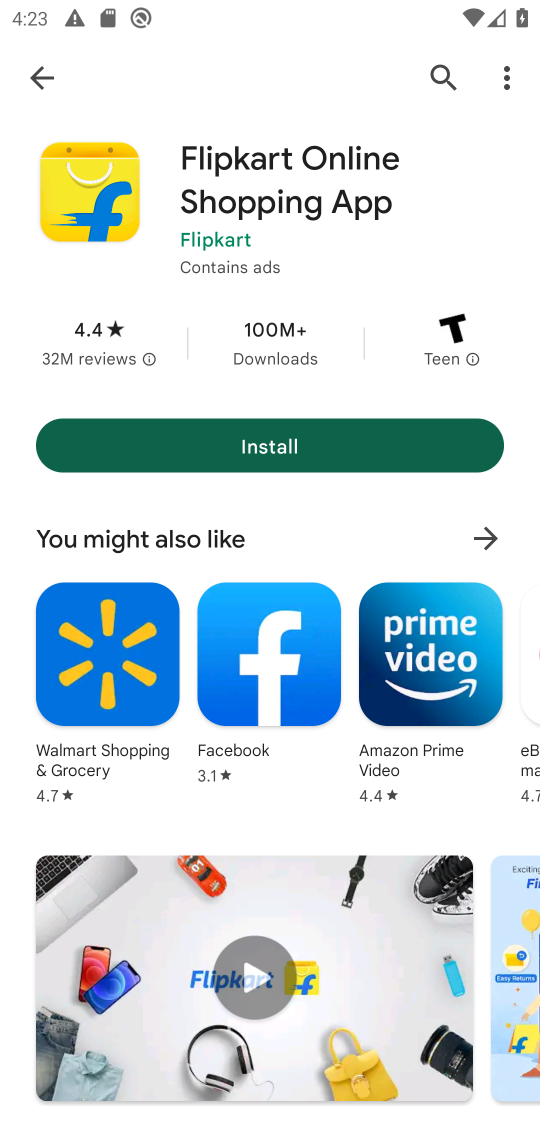
Step 53: click (321, 433)
Your task to perform on an android device: install app "Flipkart Online Shopping App" Image 54: 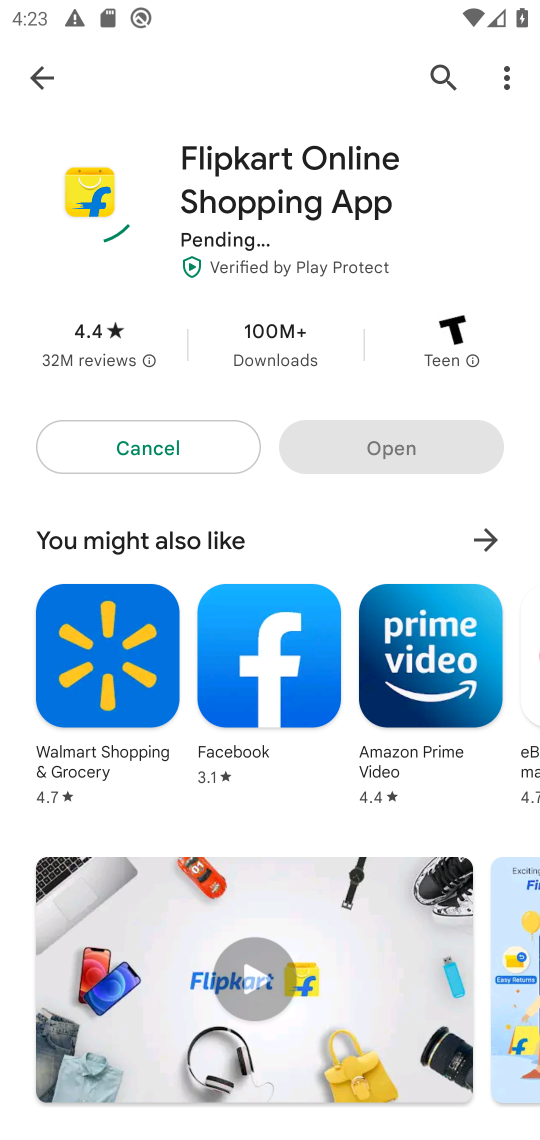
Step 54: click (323, 441)
Your task to perform on an android device: install app "Flipkart Online Shopping App" Image 55: 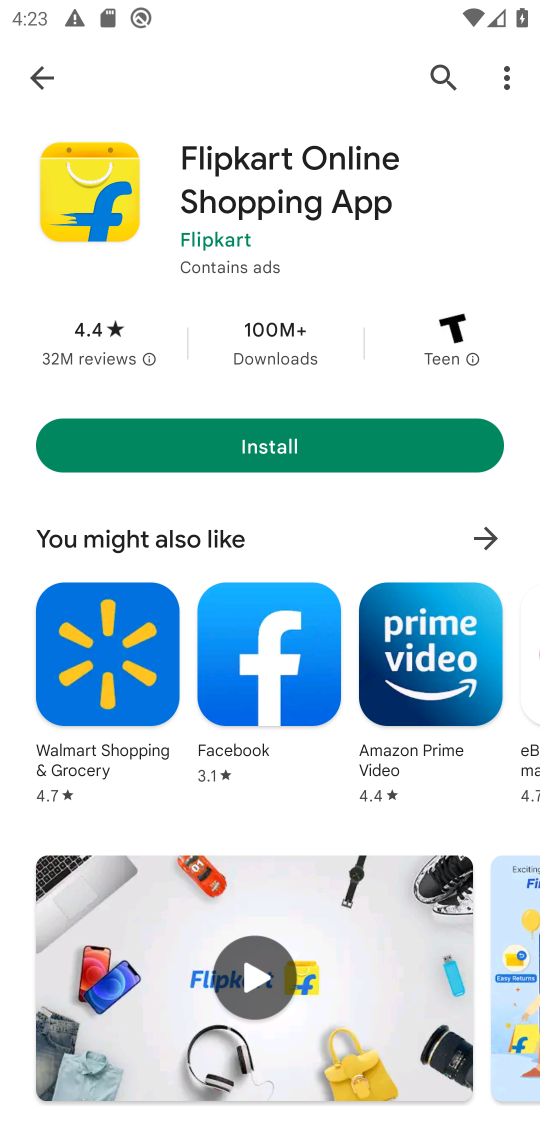
Step 55: click (224, 442)
Your task to perform on an android device: install app "Flipkart Online Shopping App" Image 56: 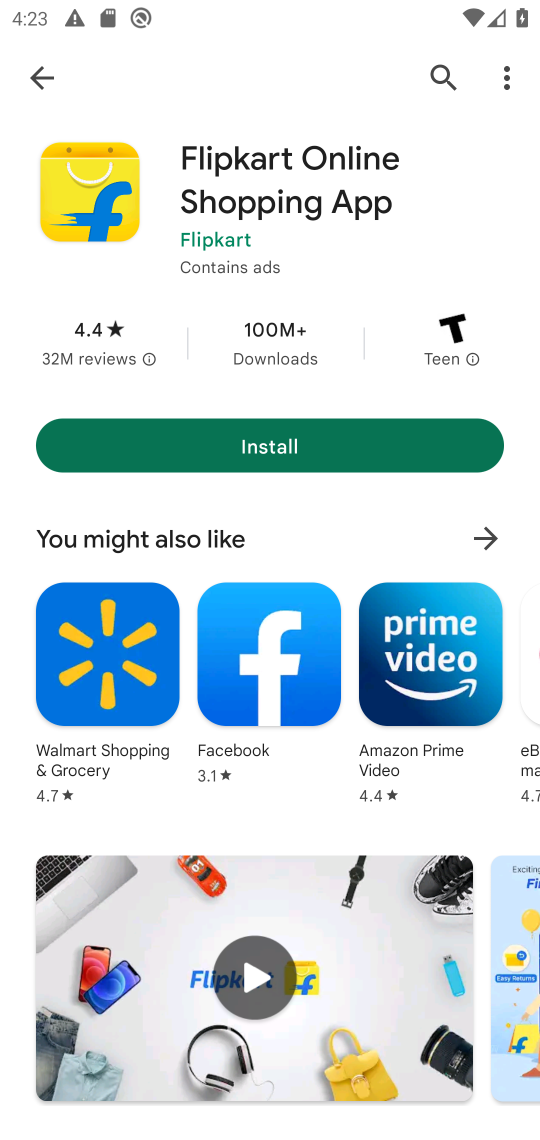
Step 56: click (255, 457)
Your task to perform on an android device: install app "Flipkart Online Shopping App" Image 57: 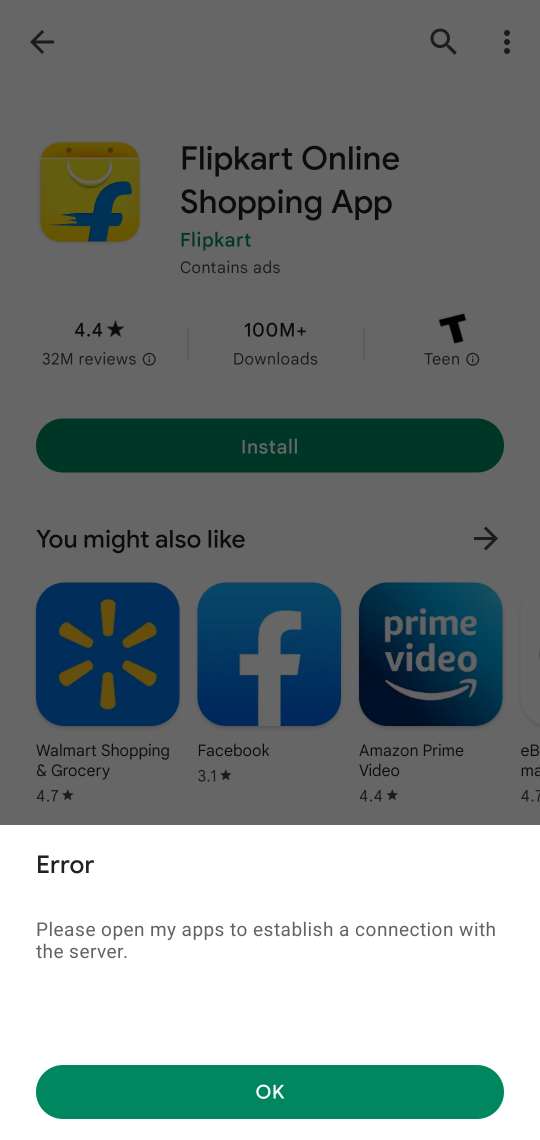
Step 57: task complete